Your task to perform on an android device: check android version Image 0: 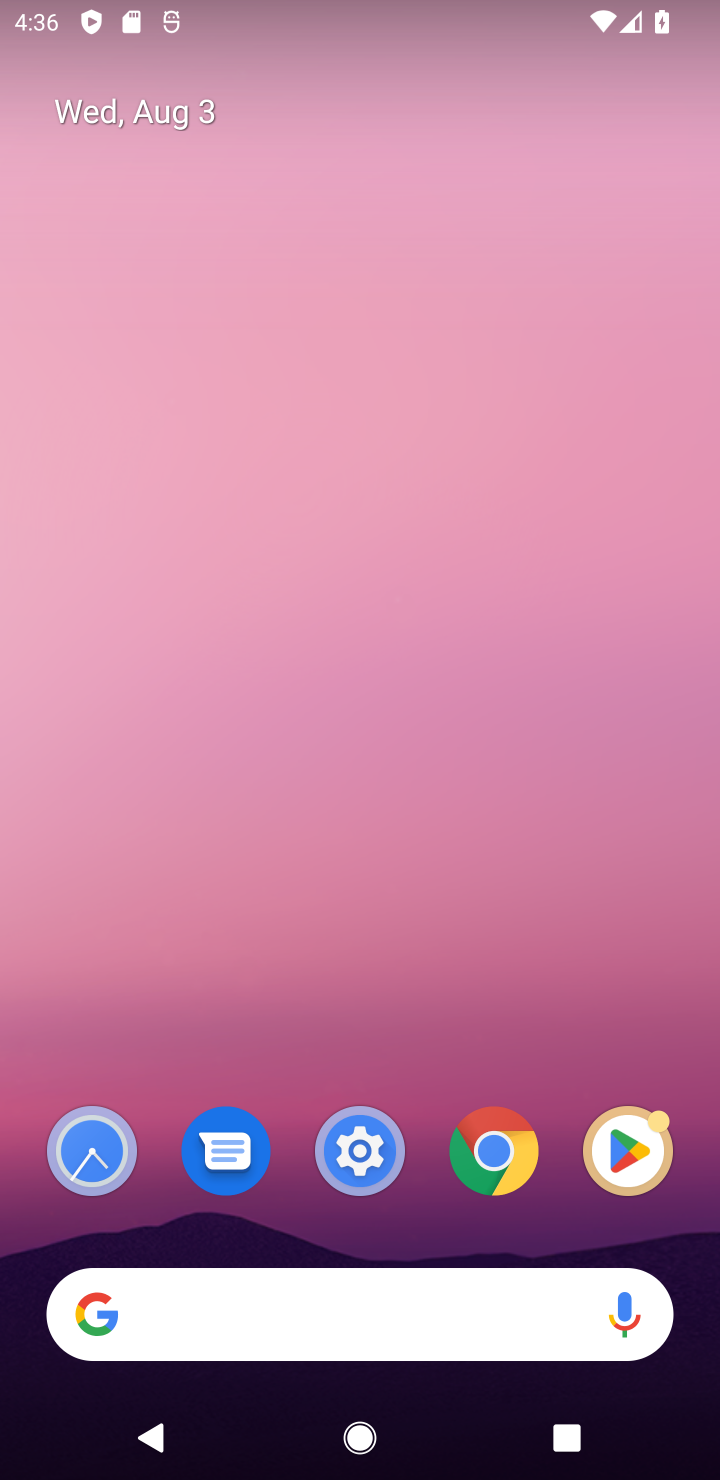
Step 0: drag from (704, 1062) to (314, 715)
Your task to perform on an android device: check android version Image 1: 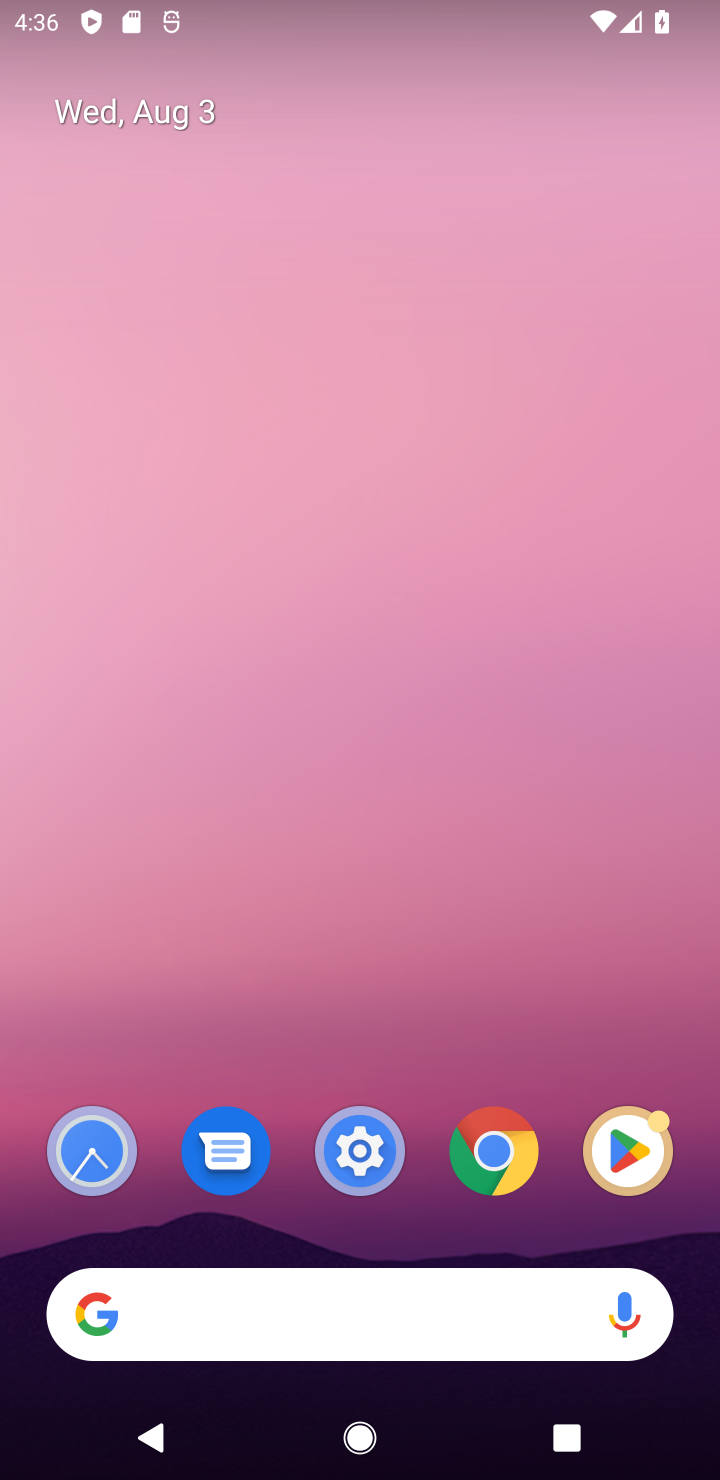
Step 1: click (292, 529)
Your task to perform on an android device: check android version Image 2: 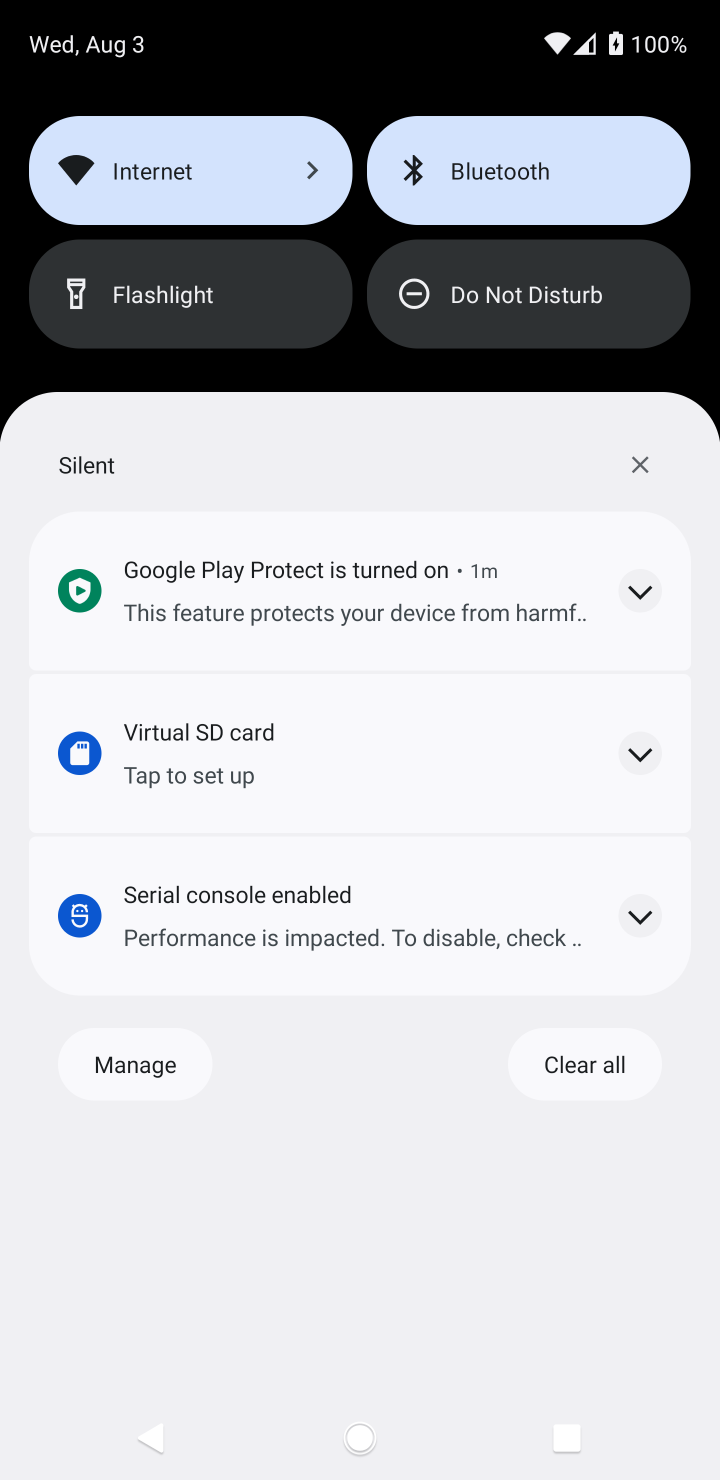
Step 2: press back button
Your task to perform on an android device: check android version Image 3: 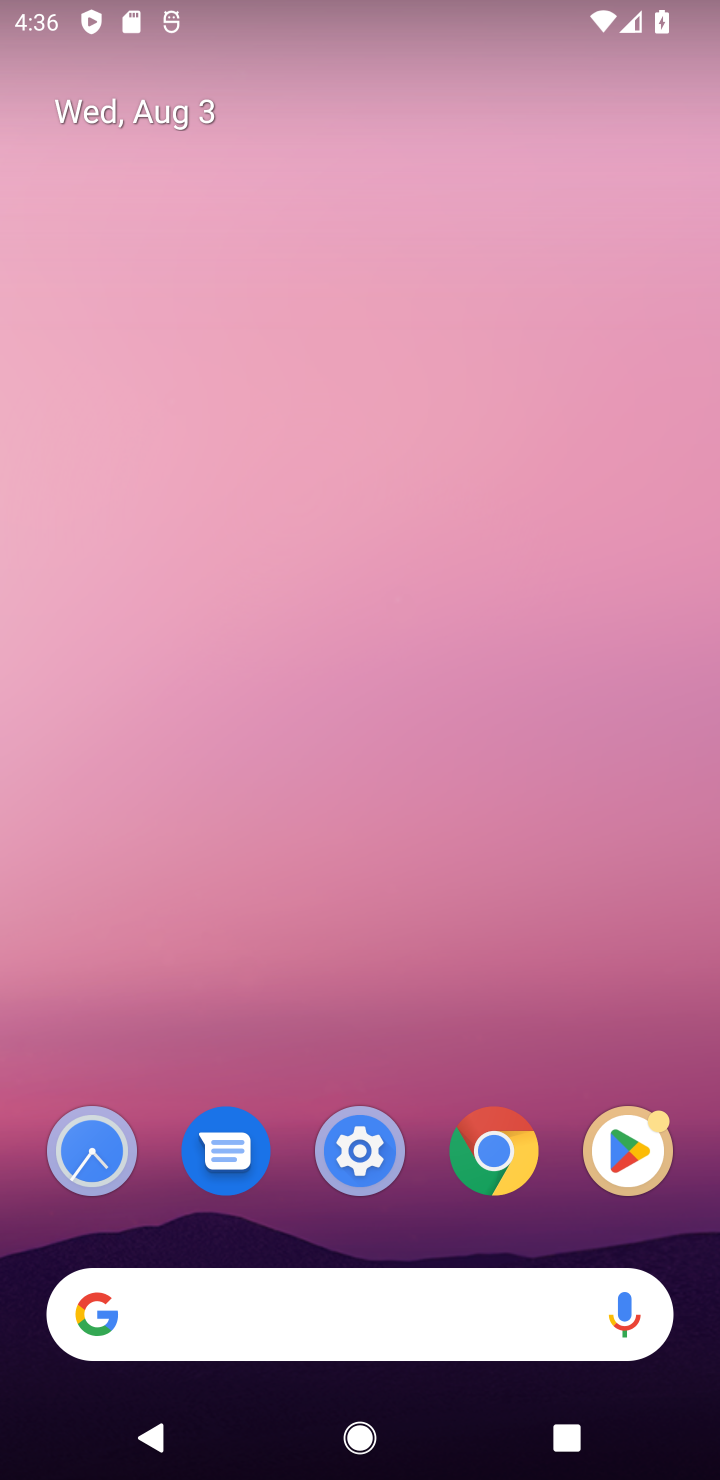
Step 3: press home button
Your task to perform on an android device: check android version Image 4: 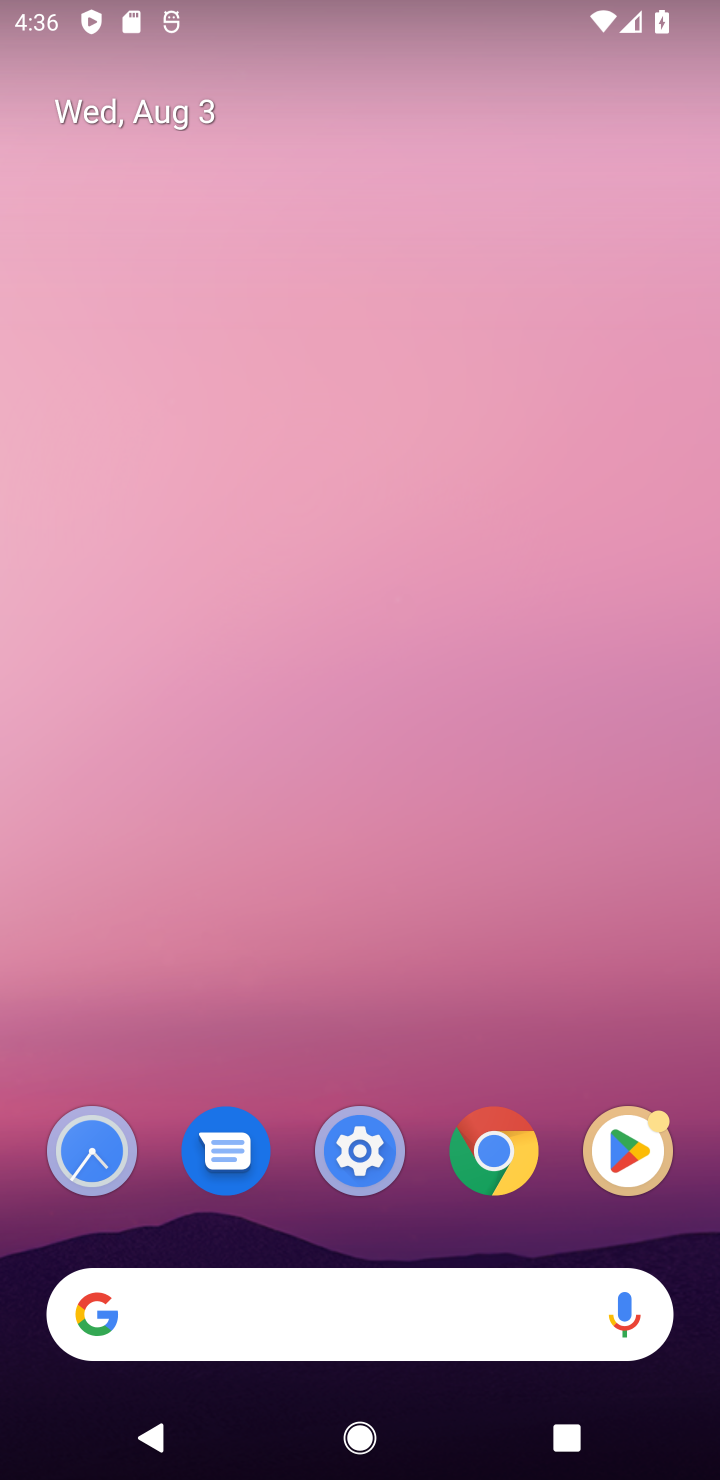
Step 4: press back button
Your task to perform on an android device: check android version Image 5: 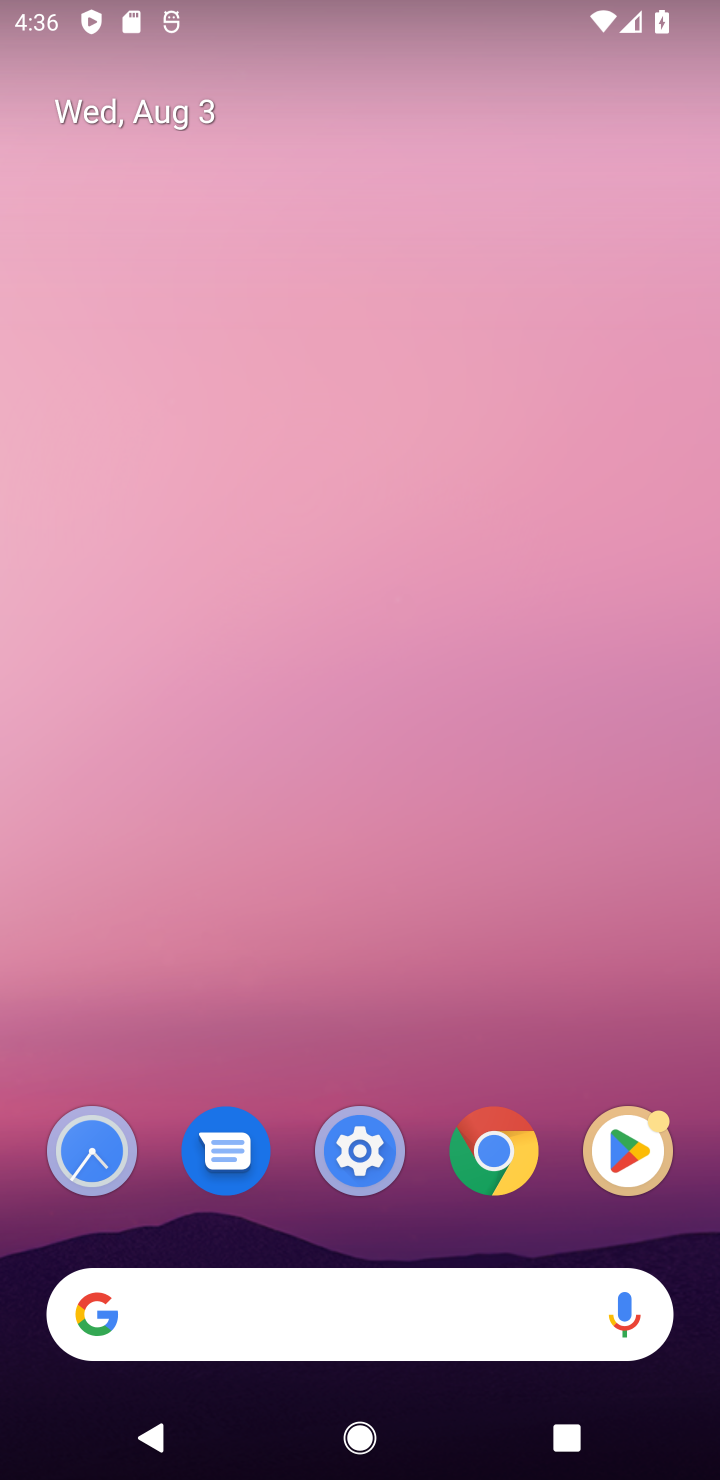
Step 5: drag from (330, 756) to (304, 457)
Your task to perform on an android device: check android version Image 6: 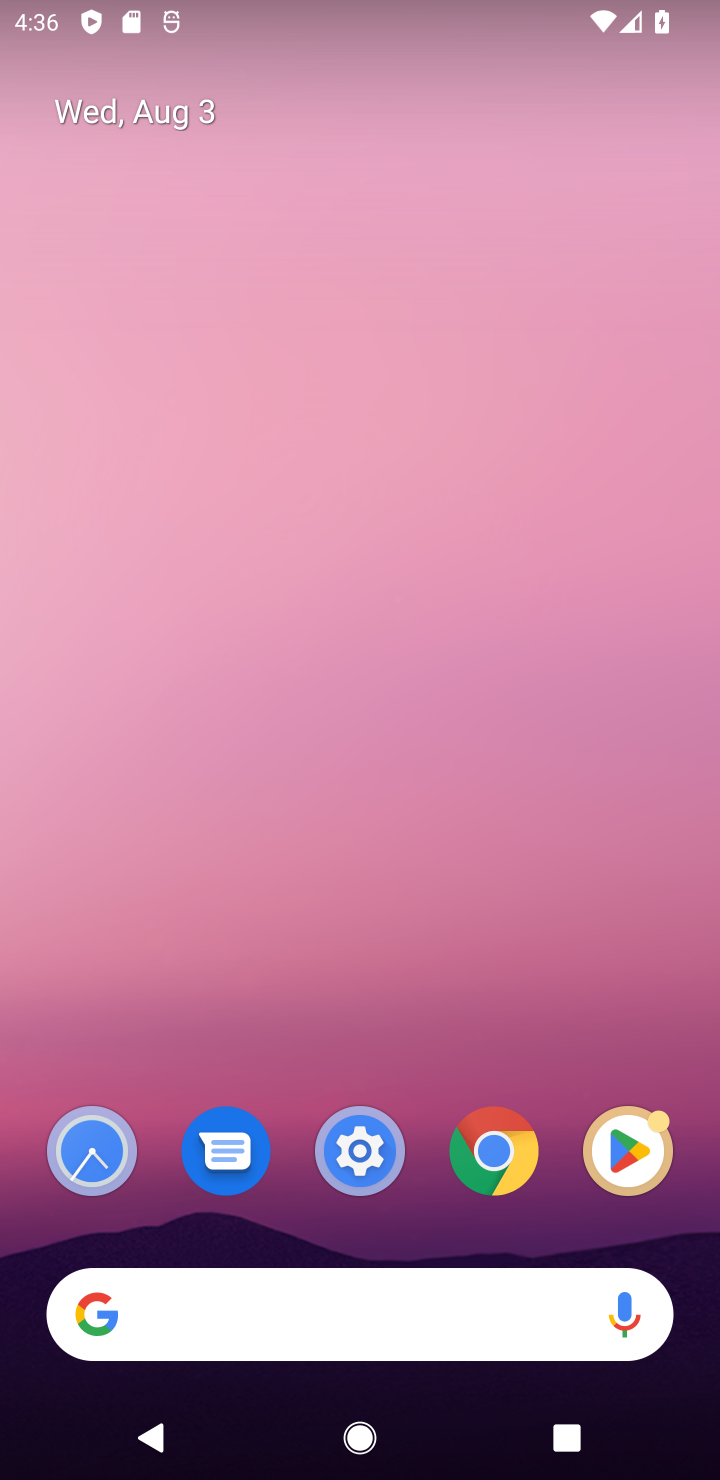
Step 6: drag from (353, 980) to (319, 571)
Your task to perform on an android device: check android version Image 7: 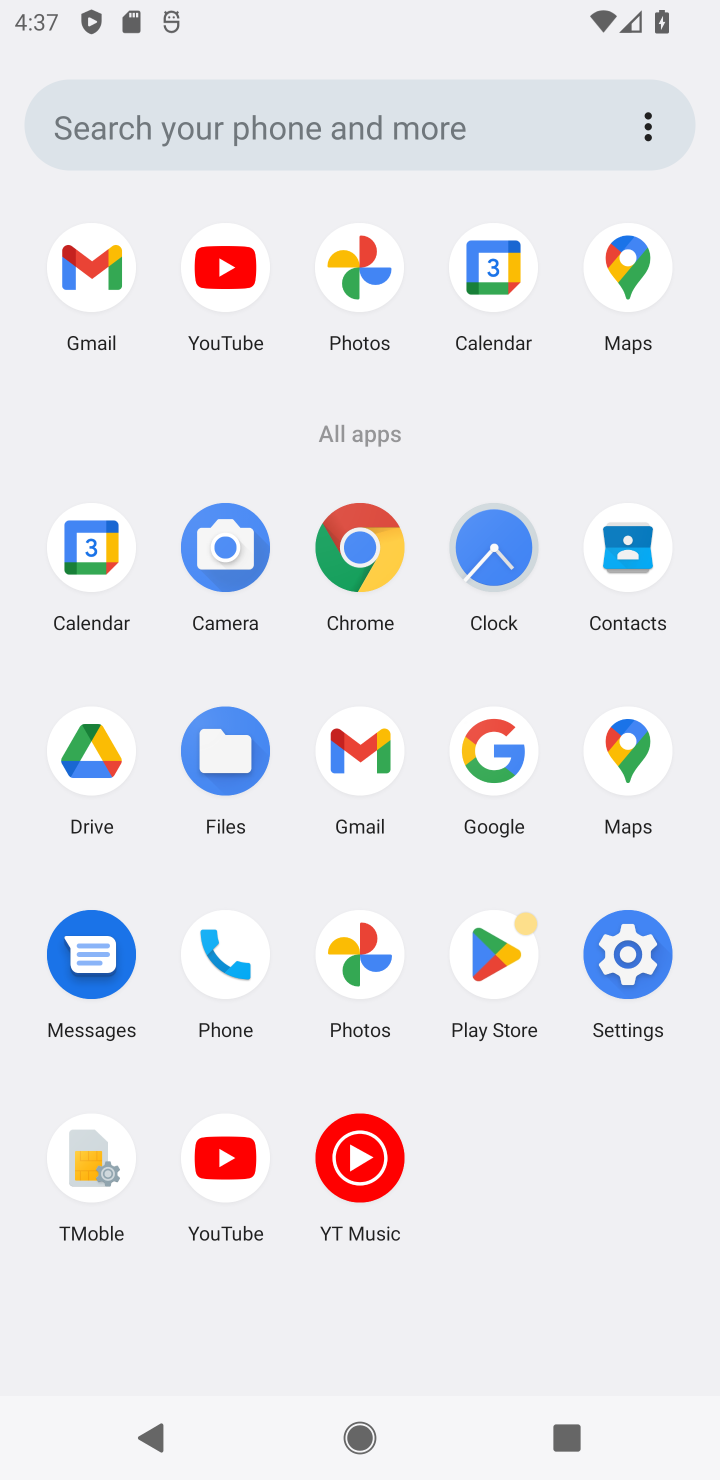
Step 7: click (642, 947)
Your task to perform on an android device: check android version Image 8: 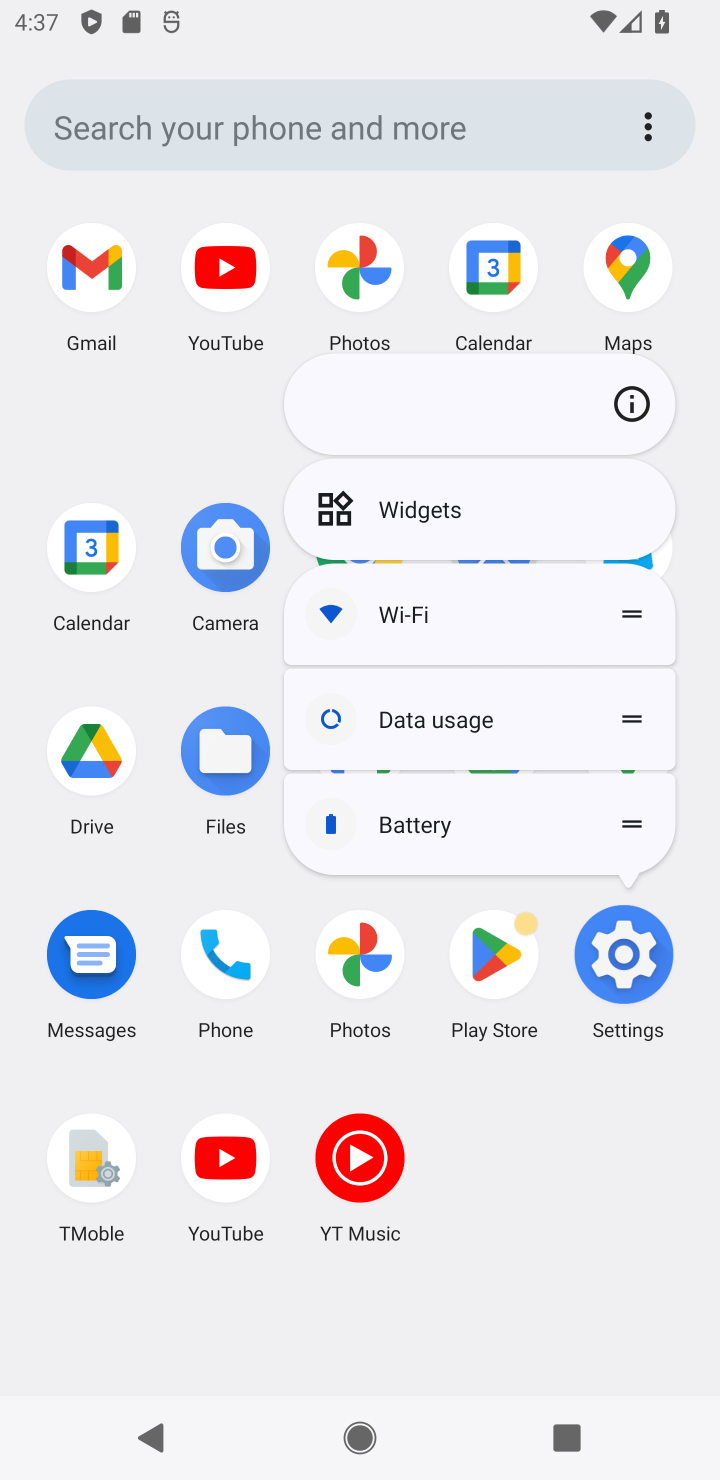
Step 8: click (620, 954)
Your task to perform on an android device: check android version Image 9: 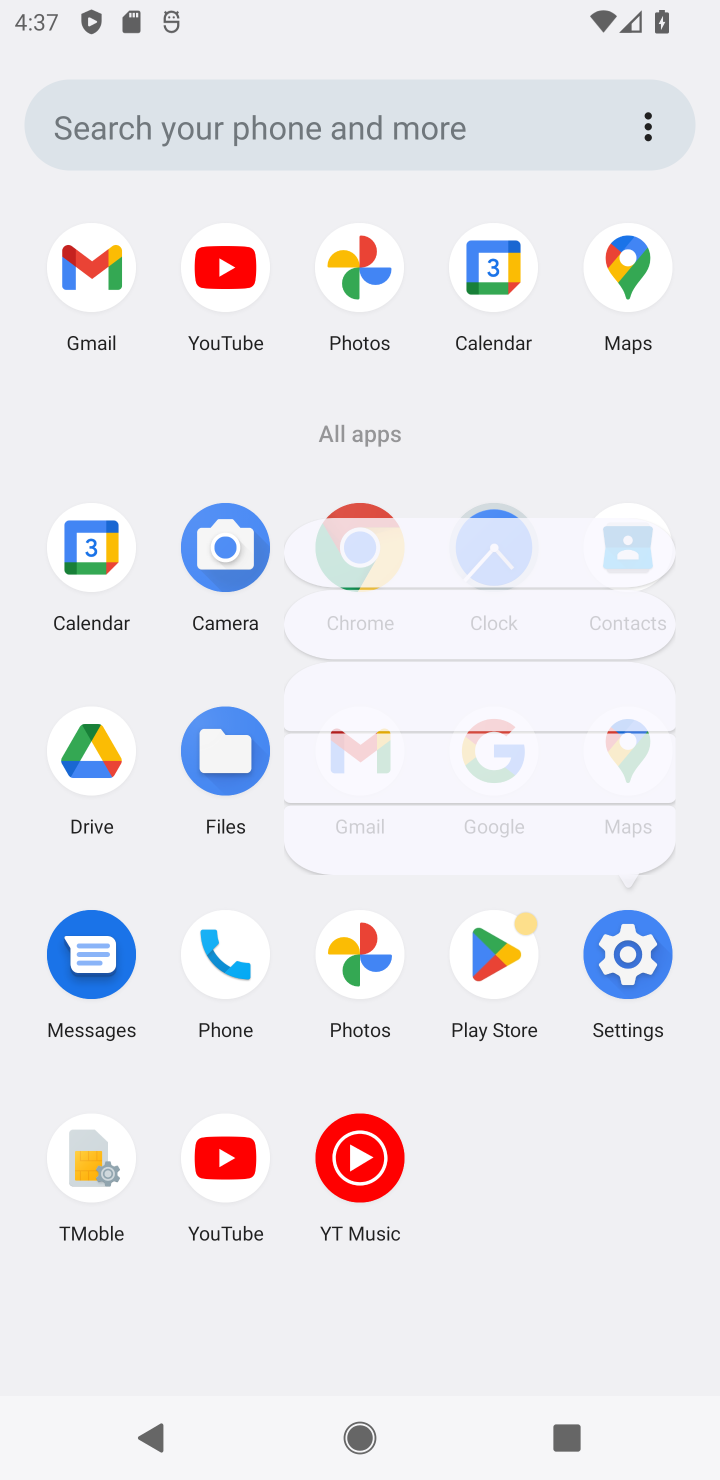
Step 9: click (614, 962)
Your task to perform on an android device: check android version Image 10: 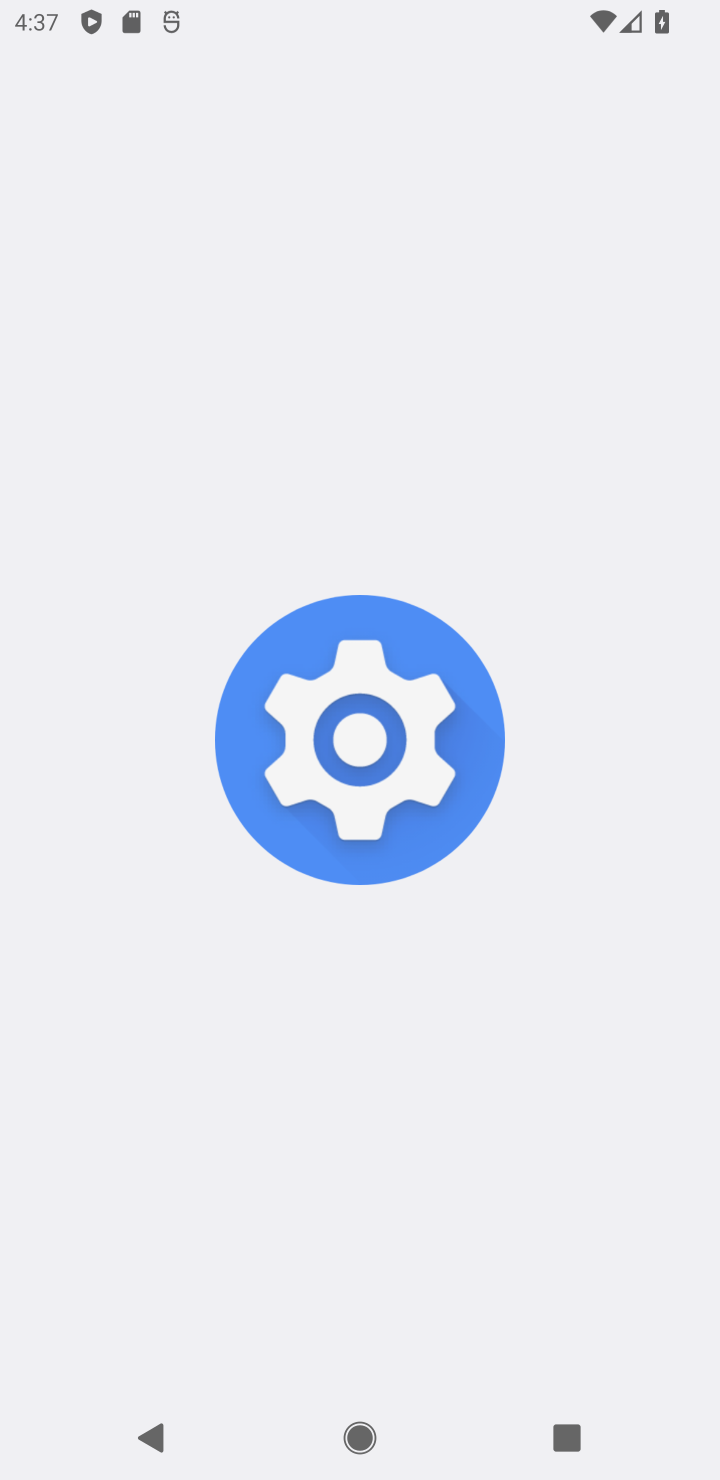
Step 10: click (601, 981)
Your task to perform on an android device: check android version Image 11: 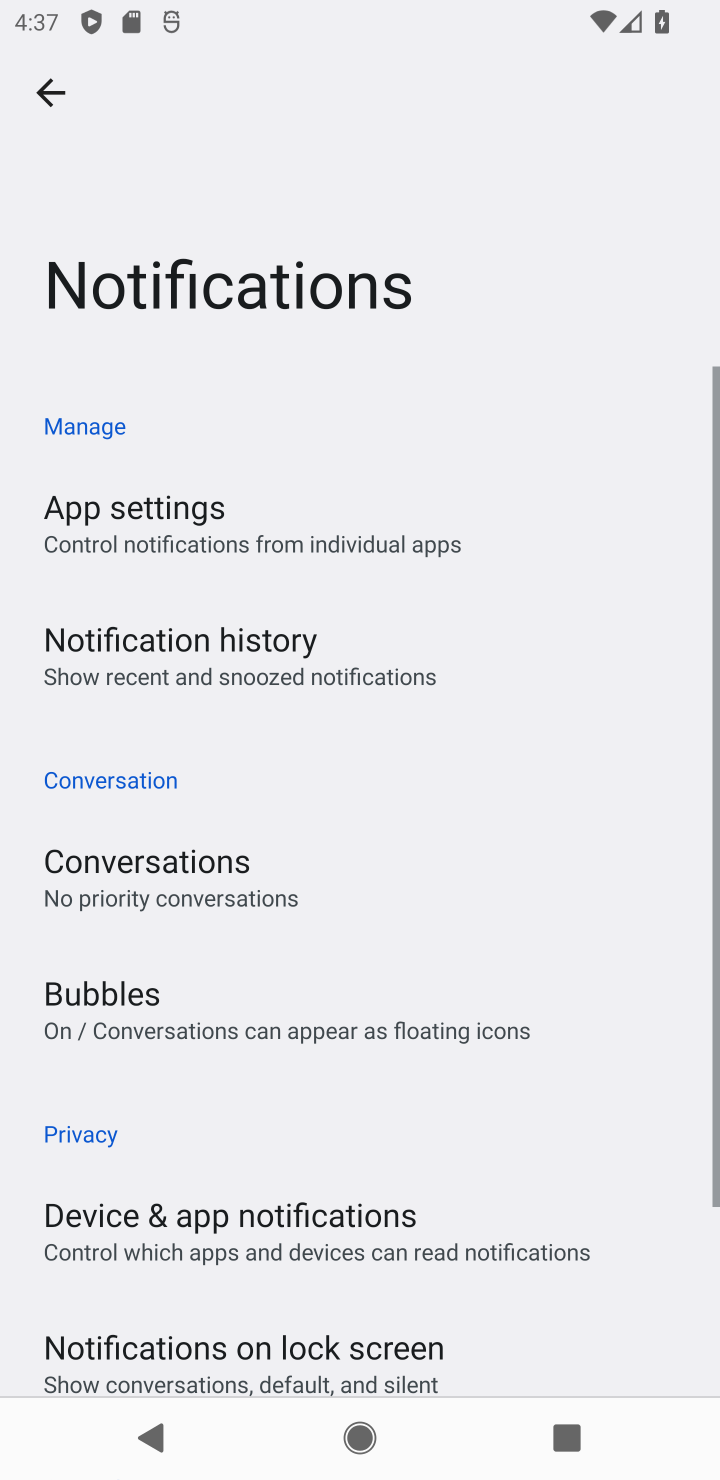
Step 11: drag from (230, 1088) to (217, 595)
Your task to perform on an android device: check android version Image 12: 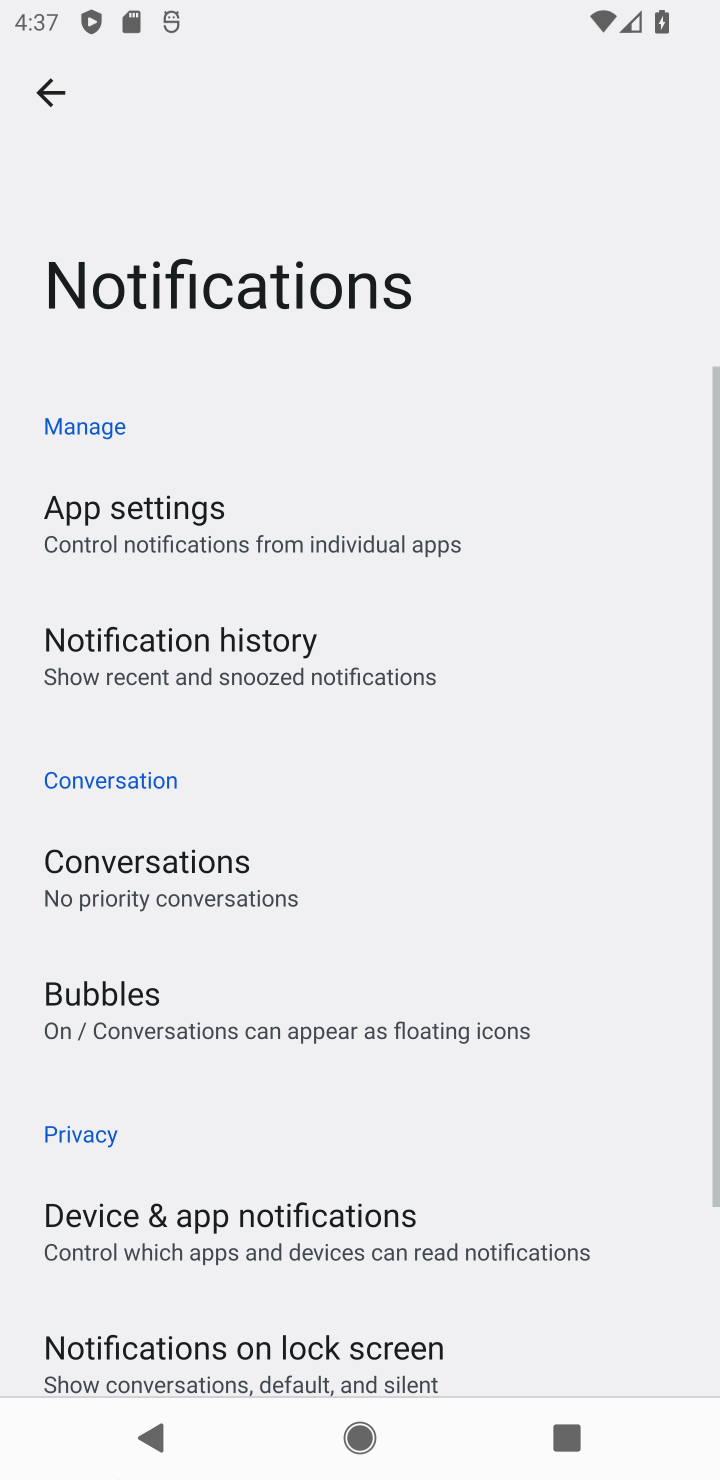
Step 12: drag from (358, 864) to (319, 594)
Your task to perform on an android device: check android version Image 13: 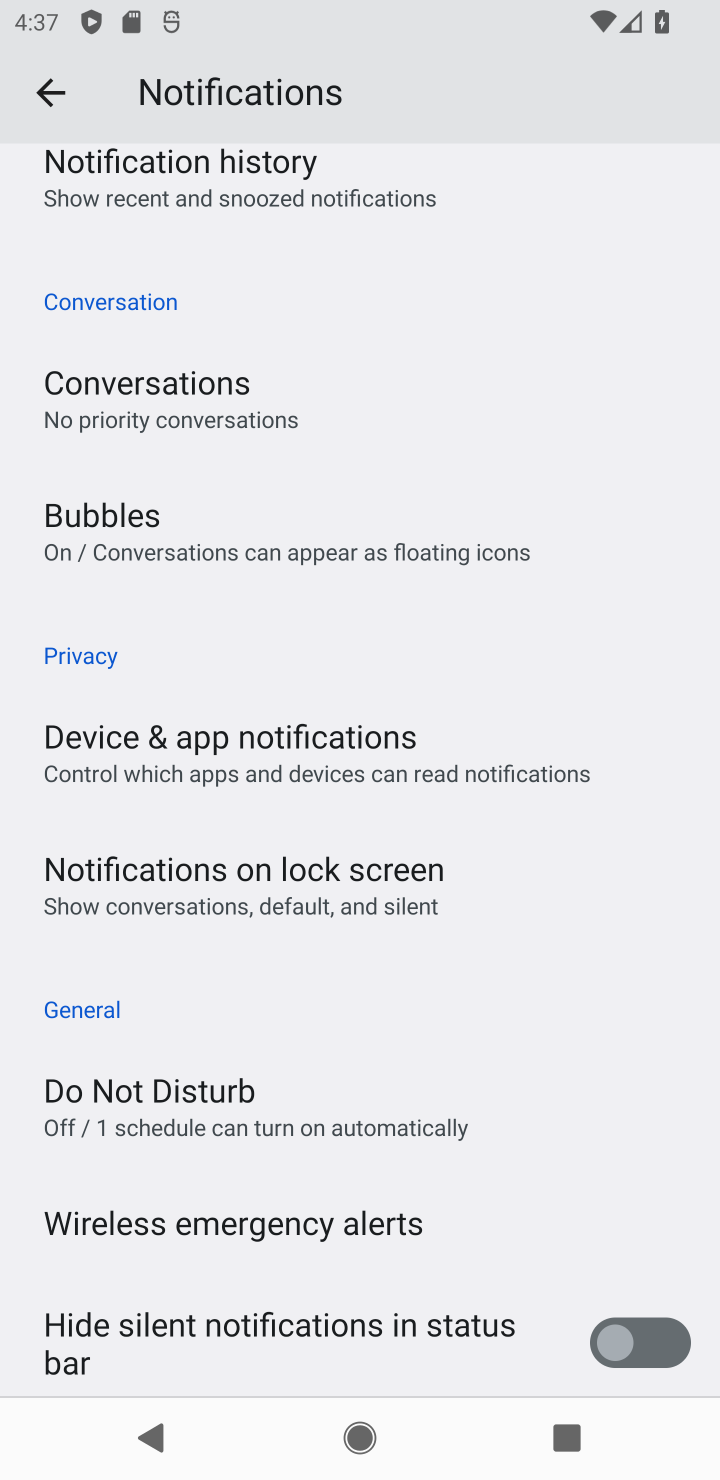
Step 13: drag from (182, 960) to (250, 227)
Your task to perform on an android device: check android version Image 14: 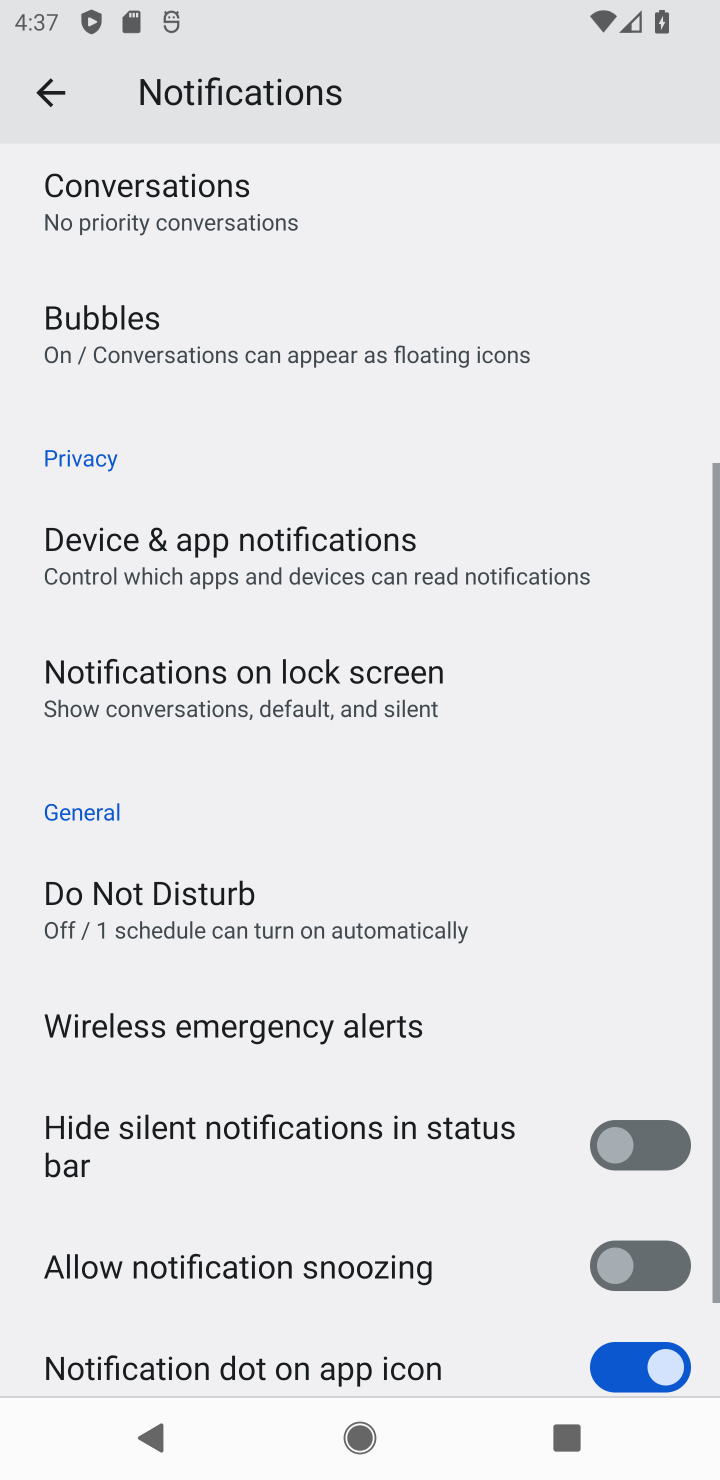
Step 14: drag from (299, 1050) to (362, 511)
Your task to perform on an android device: check android version Image 15: 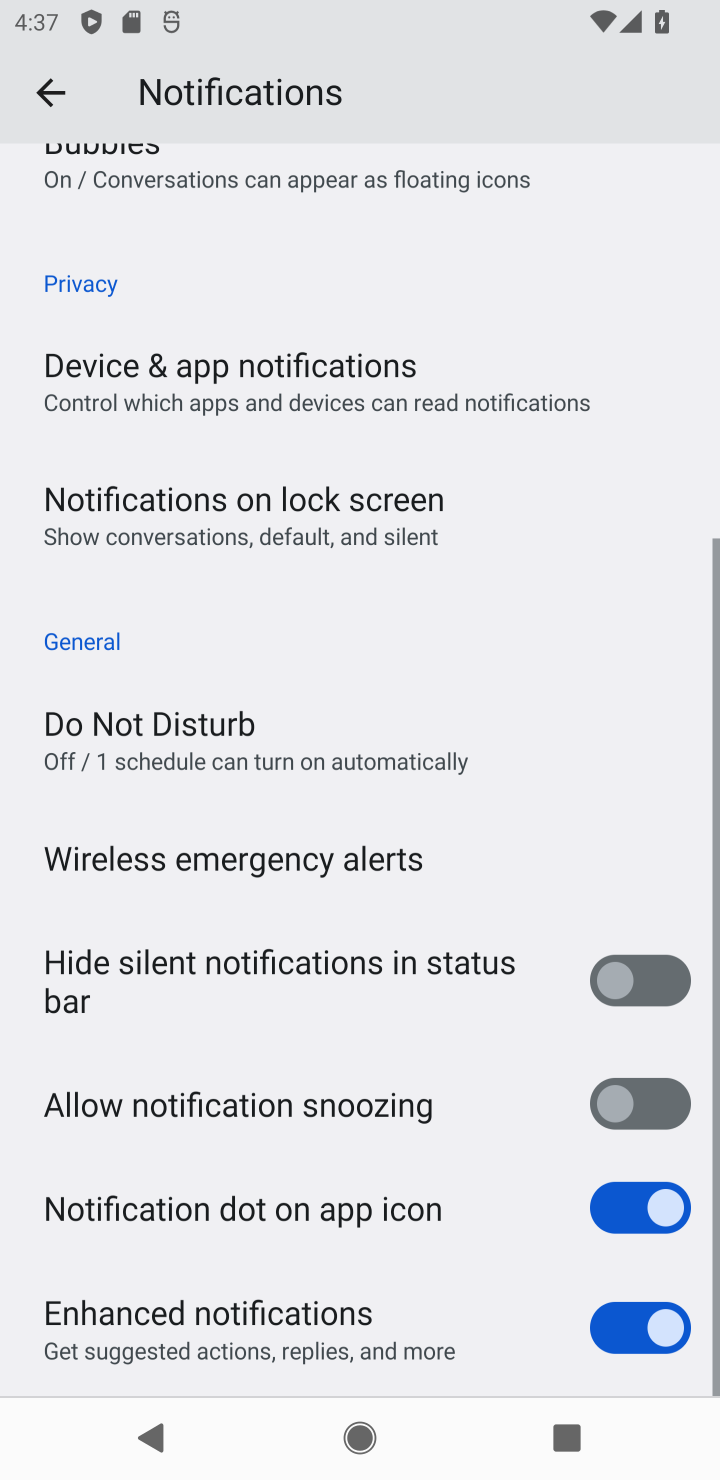
Step 15: drag from (264, 740) to (264, 495)
Your task to perform on an android device: check android version Image 16: 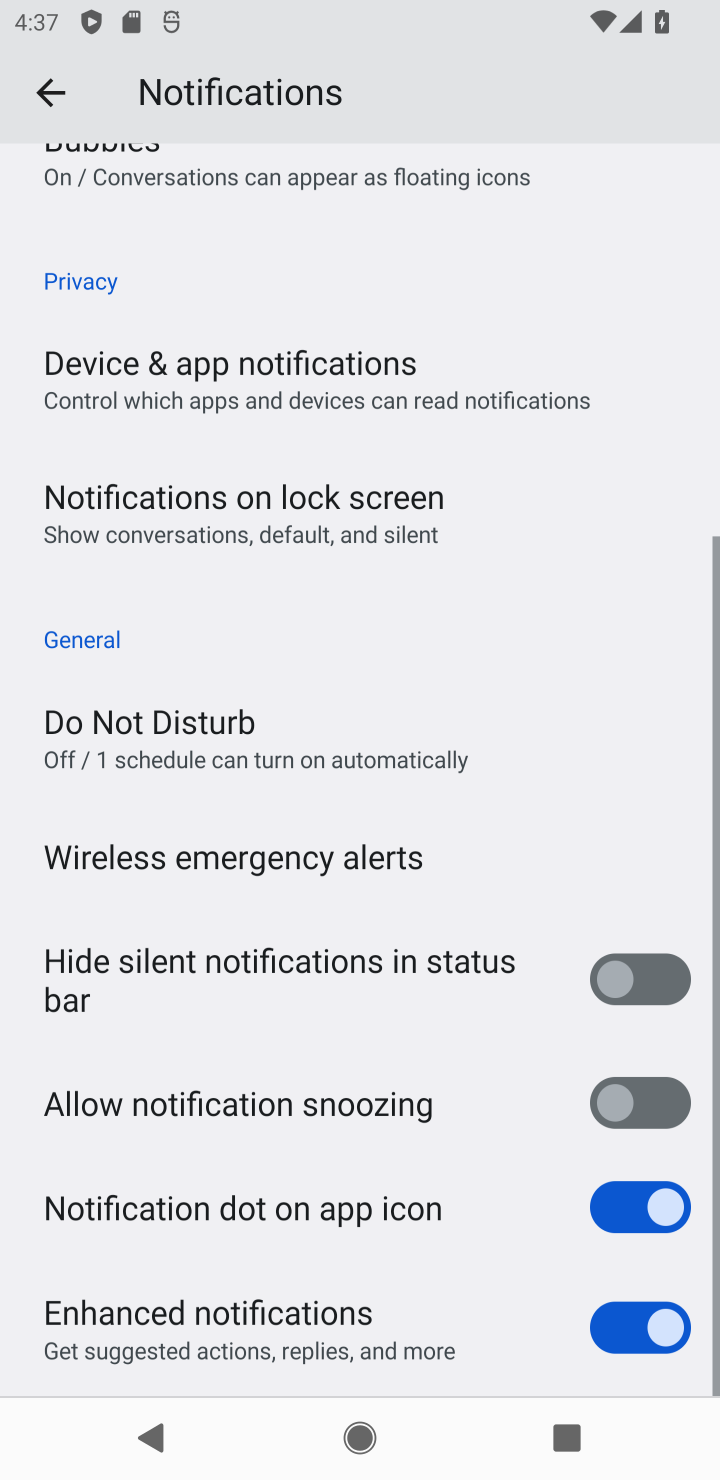
Step 16: drag from (341, 853) to (335, 585)
Your task to perform on an android device: check android version Image 17: 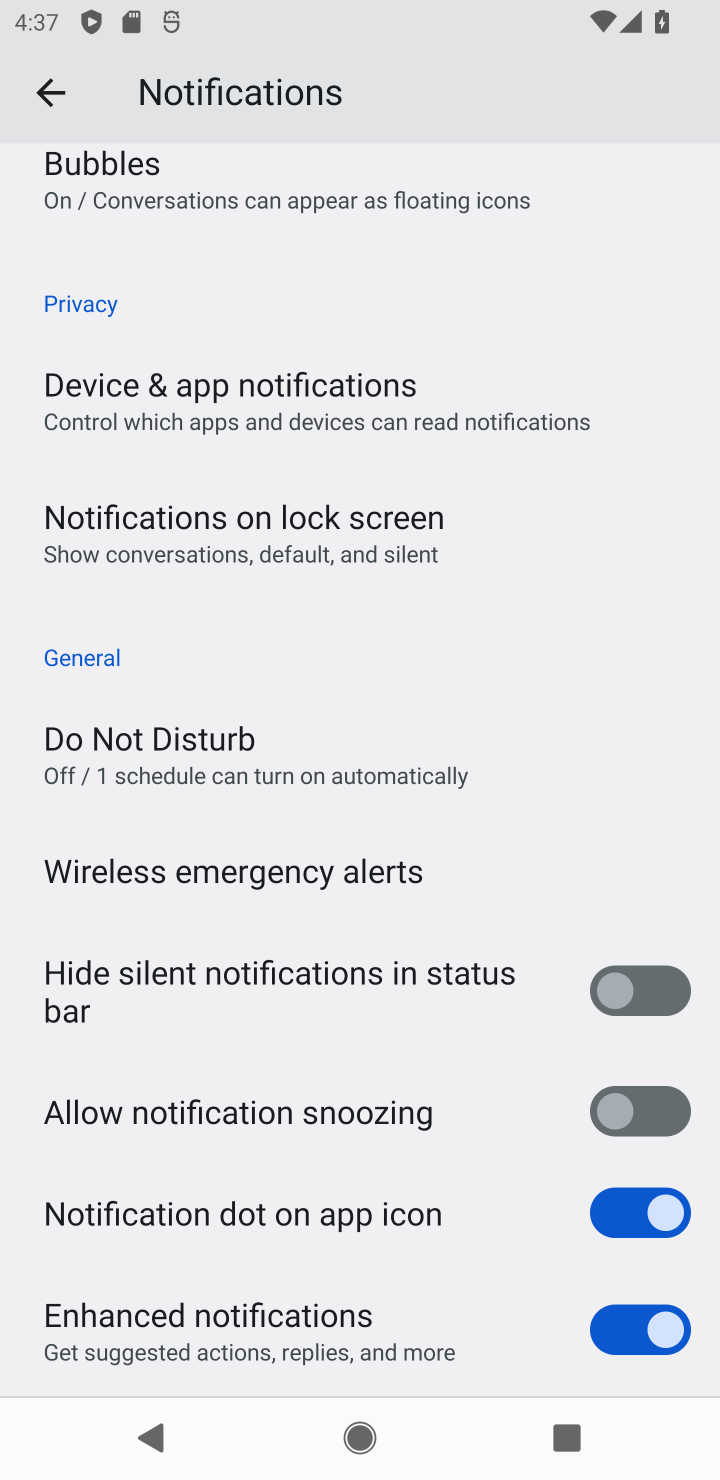
Step 17: drag from (363, 1094) to (340, 551)
Your task to perform on an android device: check android version Image 18: 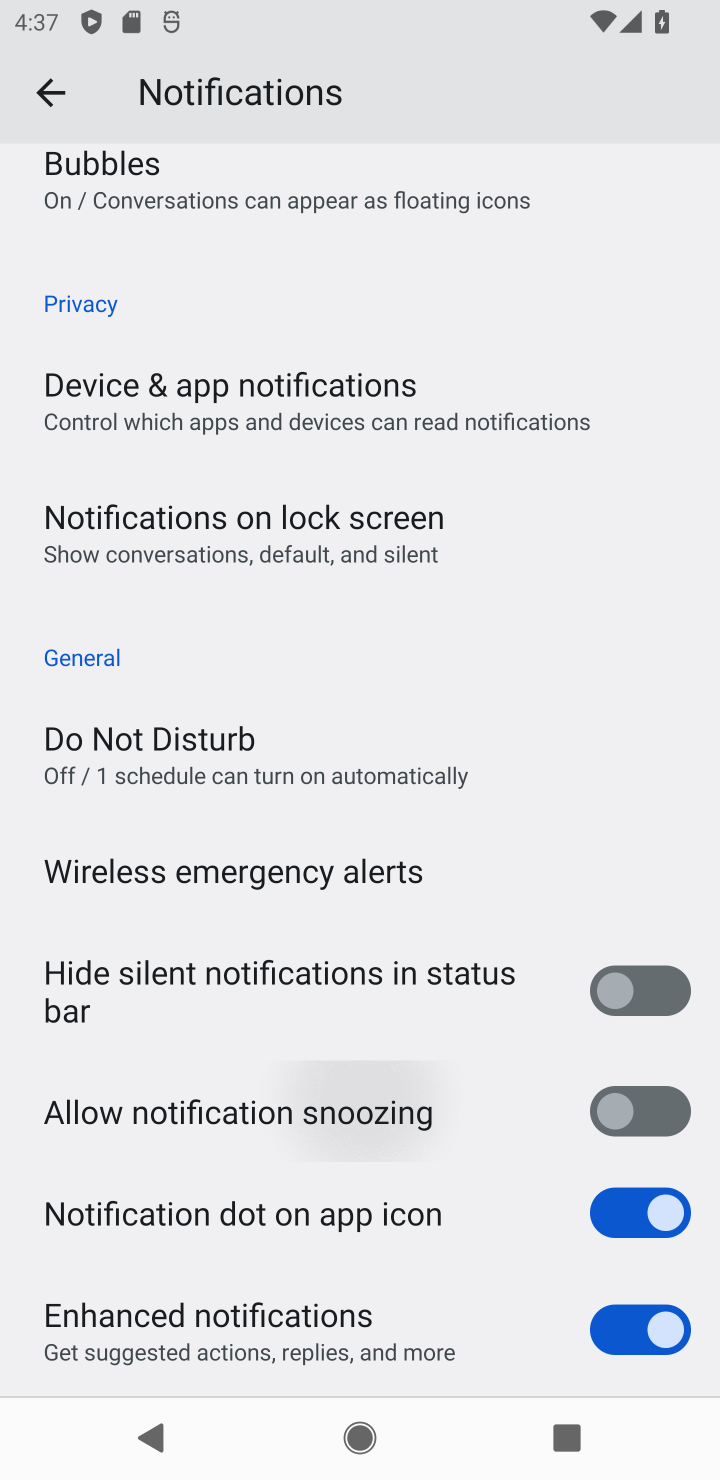
Step 18: click (156, 732)
Your task to perform on an android device: check android version Image 19: 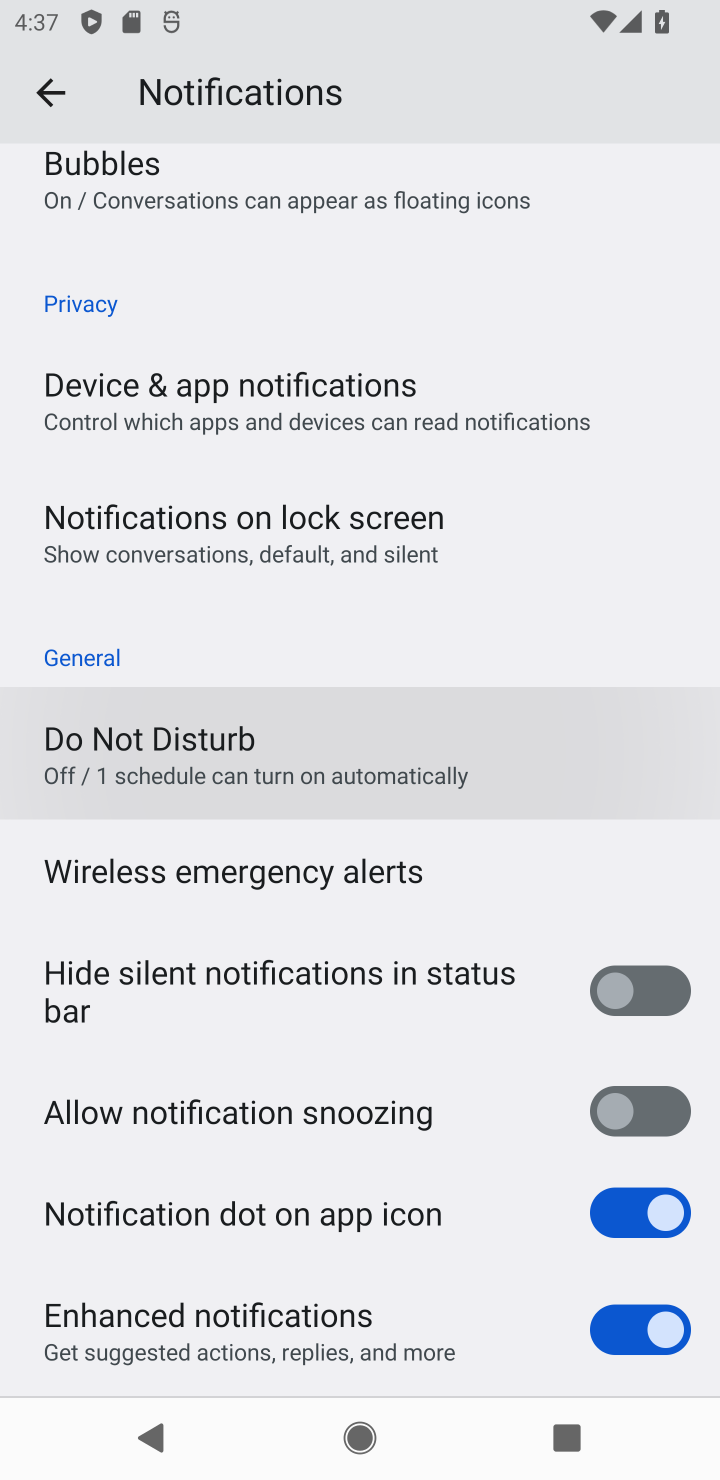
Step 19: click (46, 103)
Your task to perform on an android device: check android version Image 20: 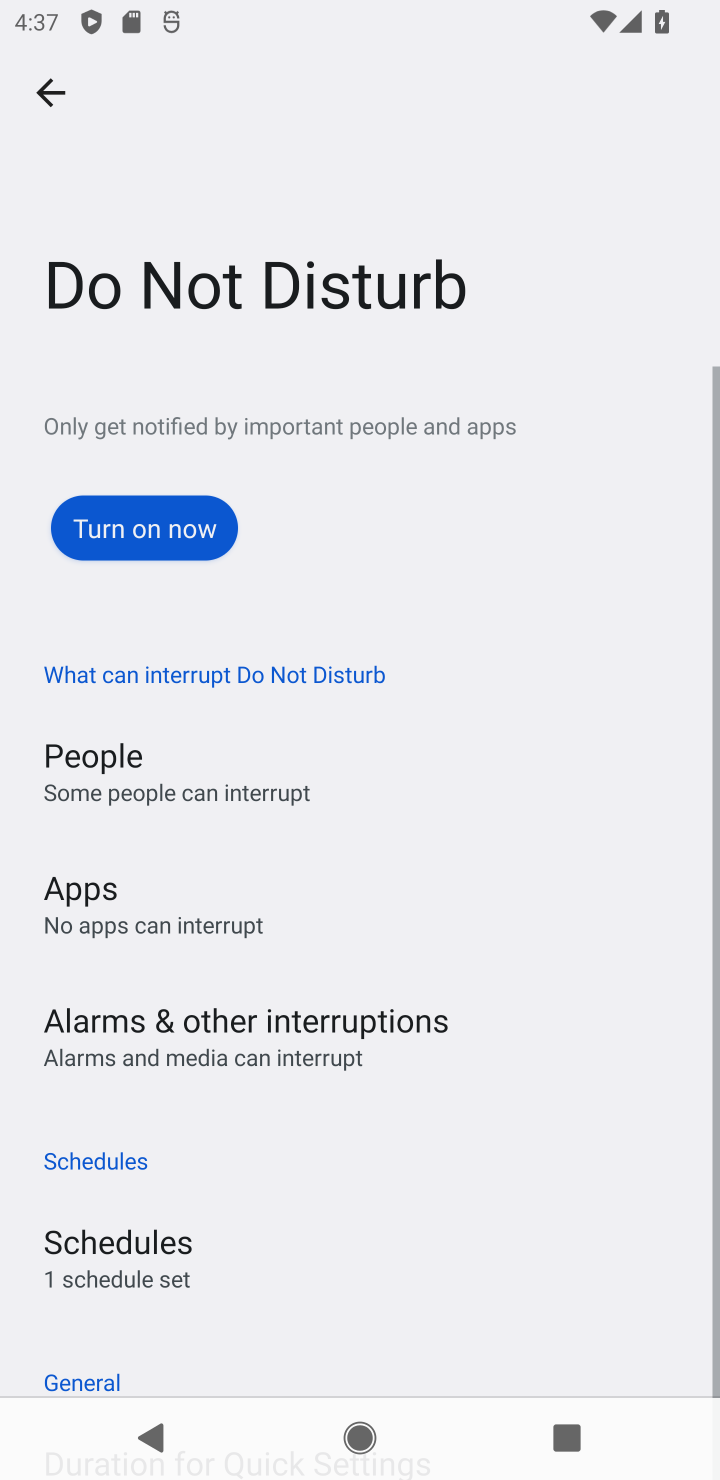
Step 20: click (45, 91)
Your task to perform on an android device: check android version Image 21: 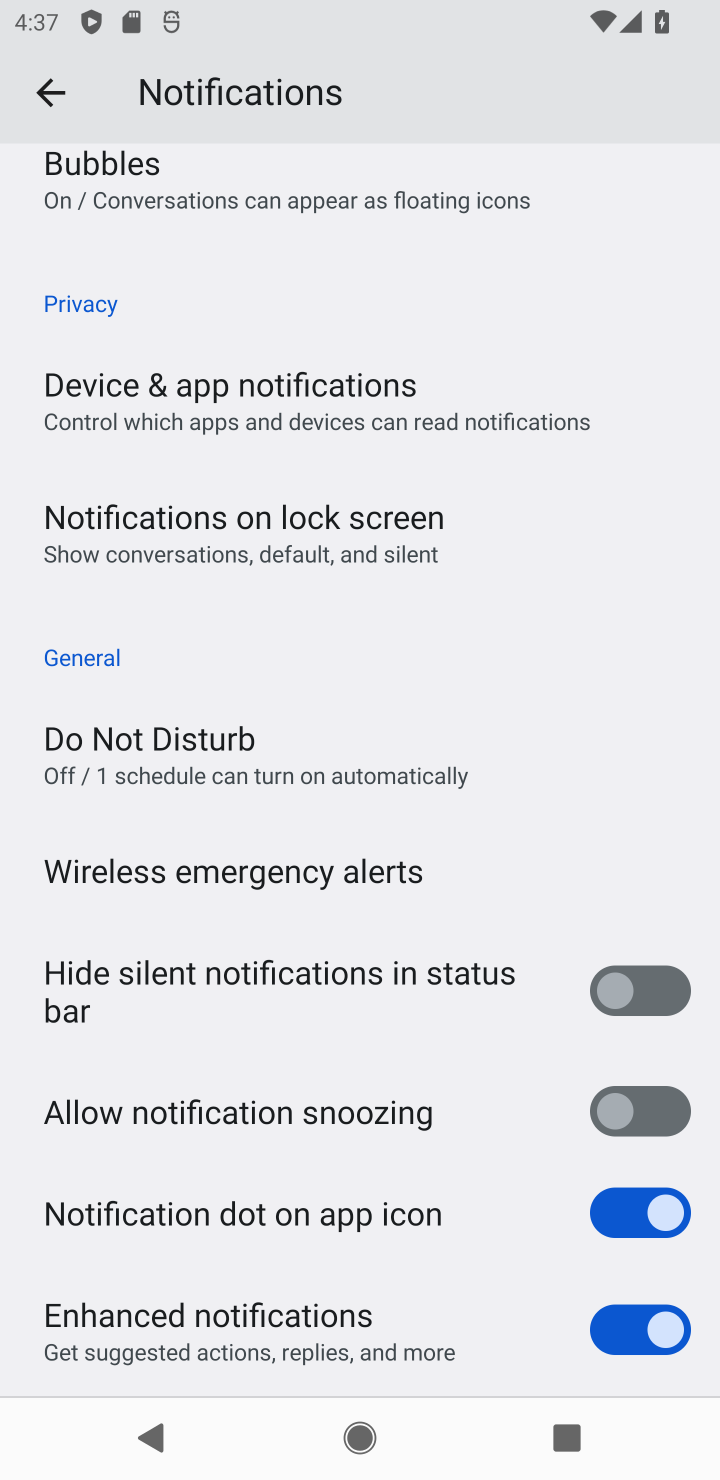
Step 21: click (52, 91)
Your task to perform on an android device: check android version Image 22: 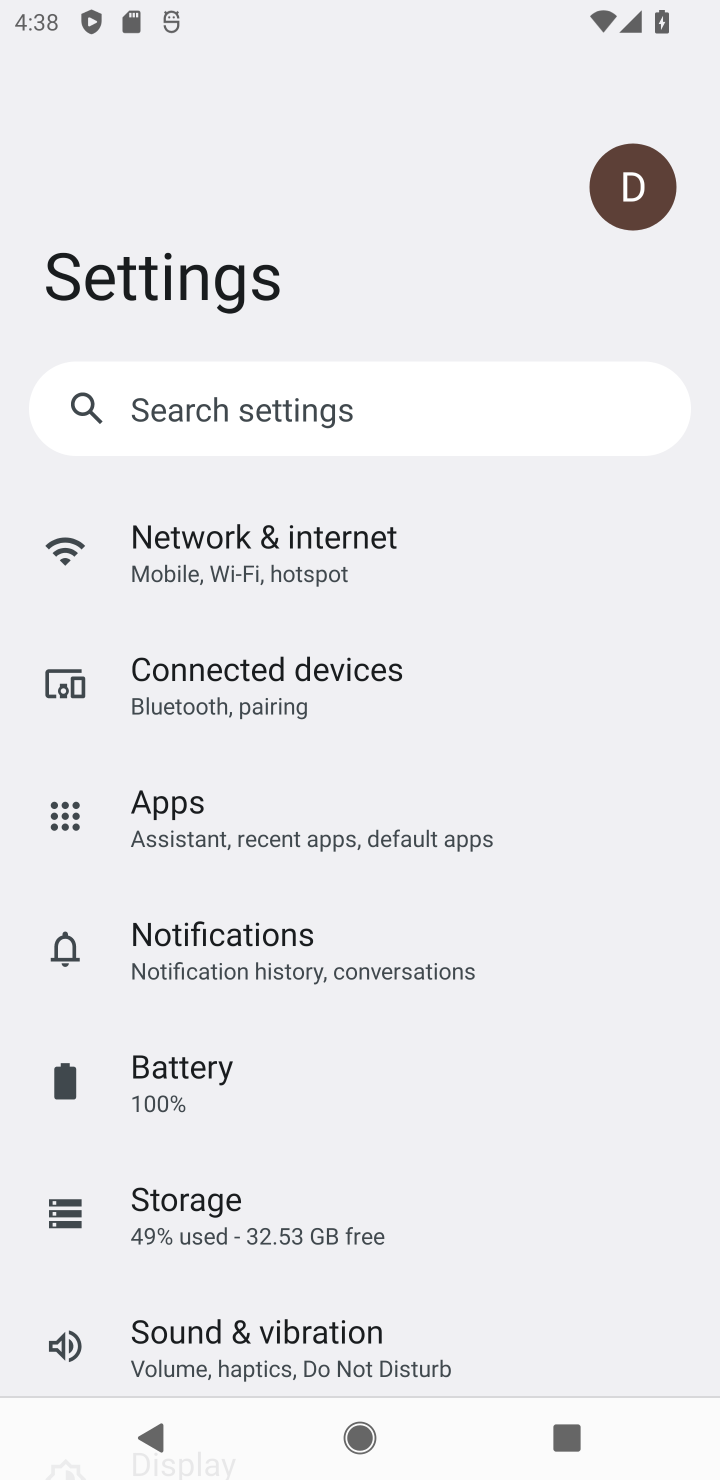
Step 22: drag from (301, 730) to (293, 321)
Your task to perform on an android device: check android version Image 23: 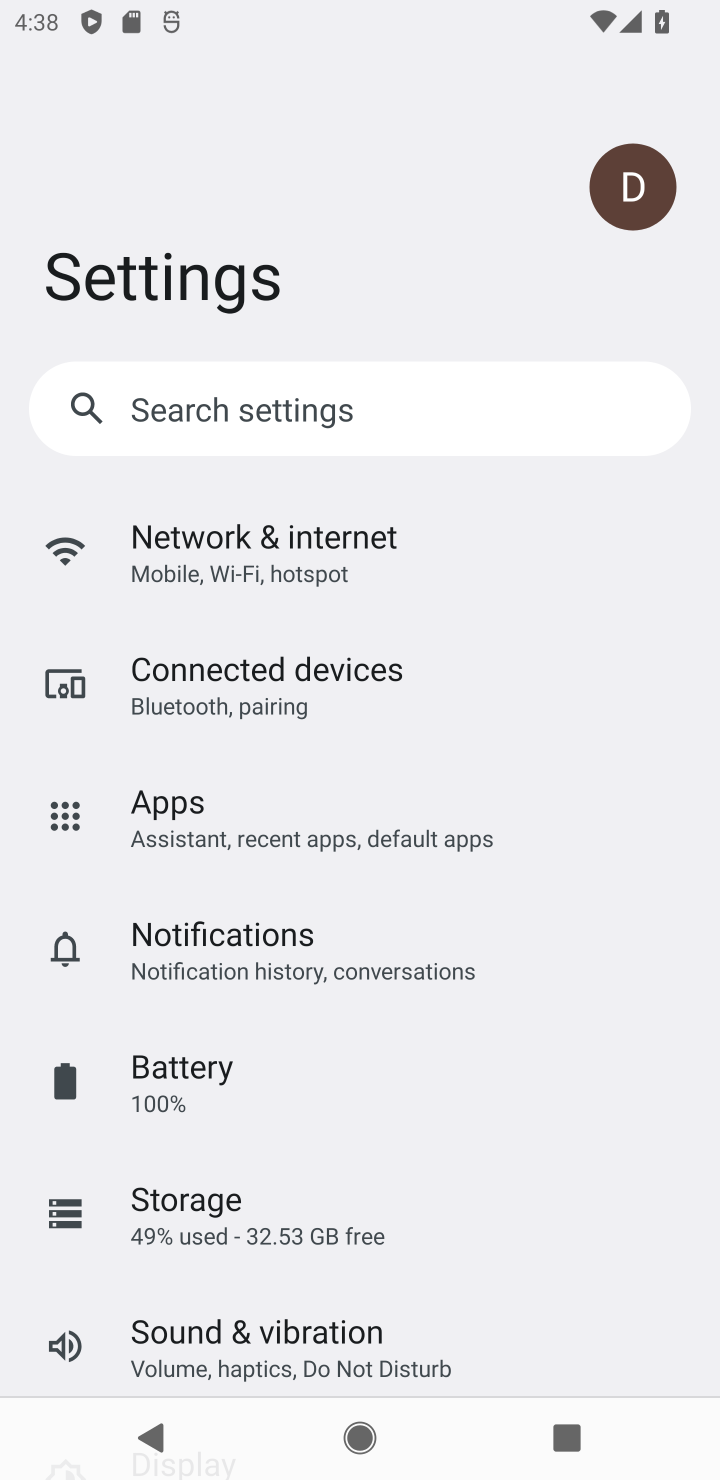
Step 23: click (184, 536)
Your task to perform on an android device: check android version Image 24: 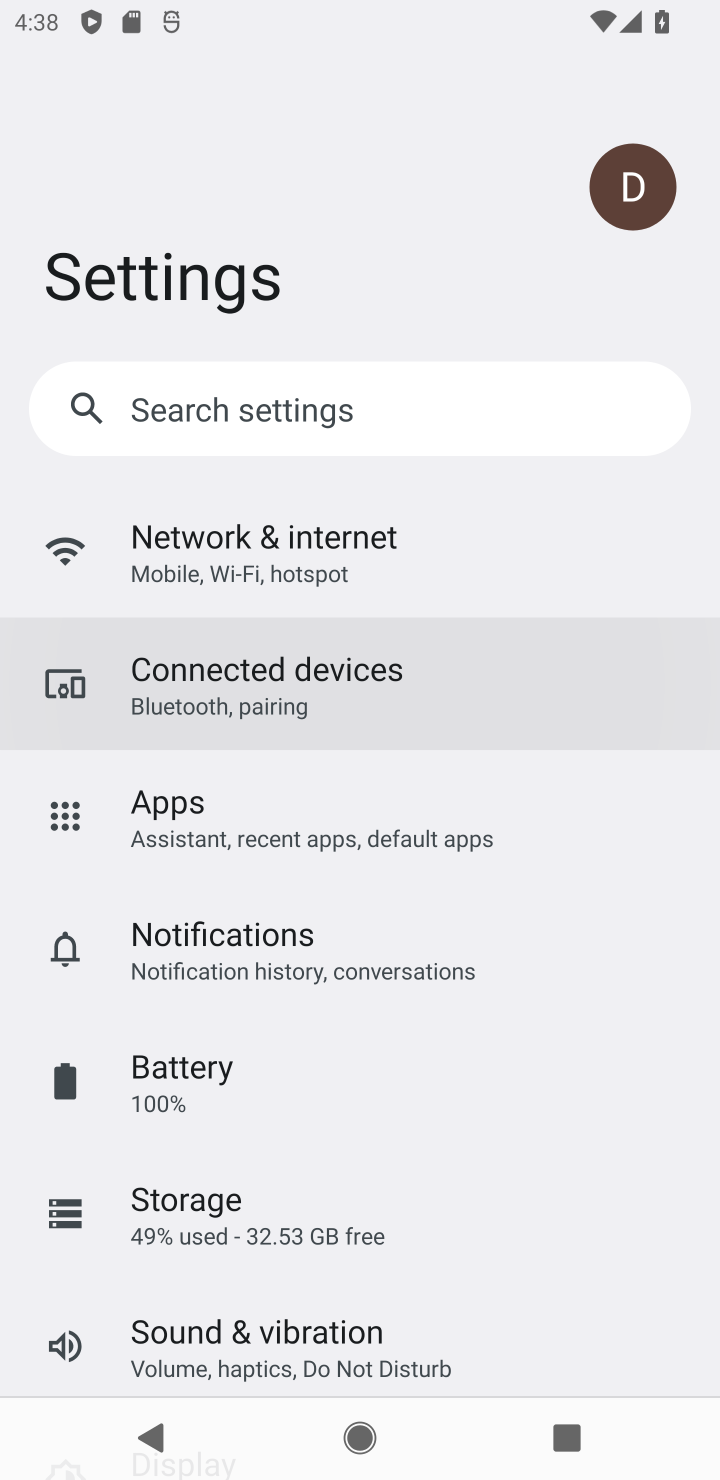
Step 24: drag from (249, 809) to (248, 472)
Your task to perform on an android device: check android version Image 25: 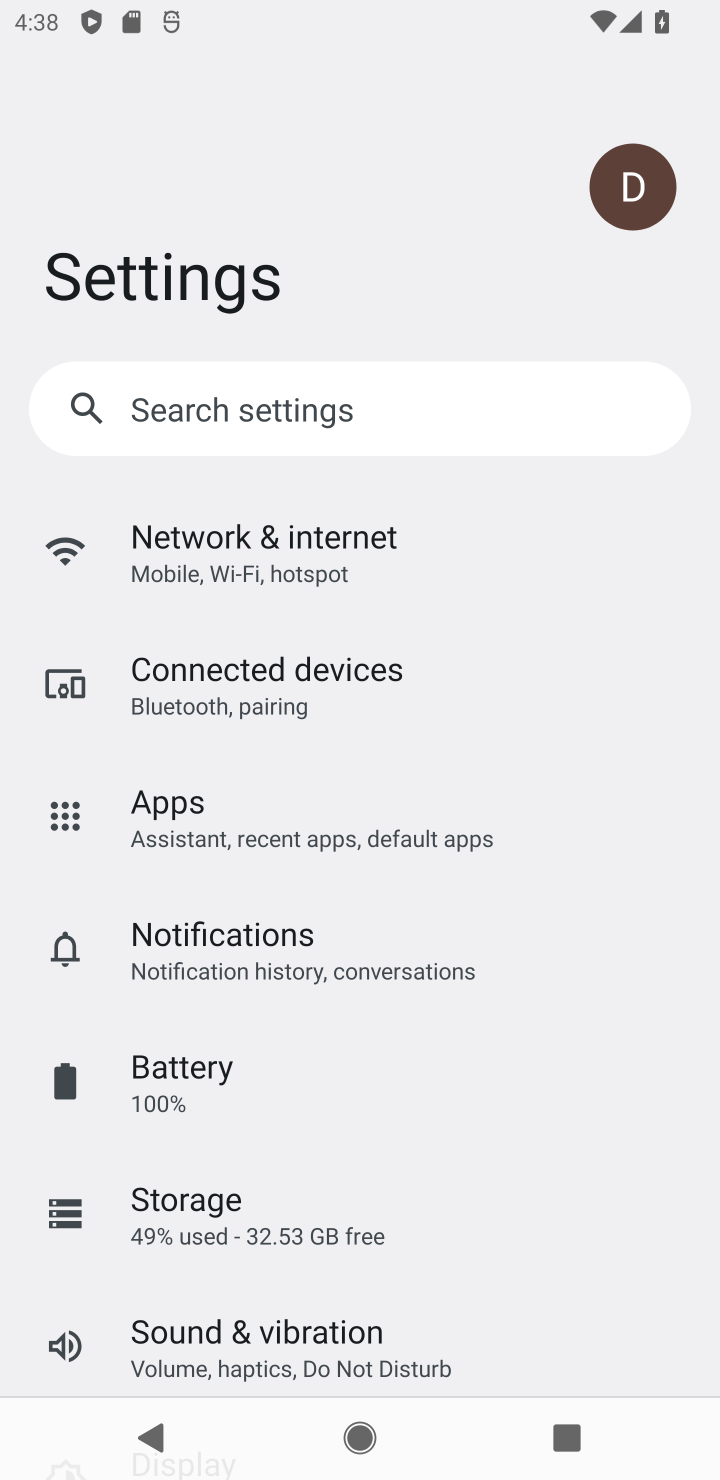
Step 25: drag from (289, 785) to (285, 866)
Your task to perform on an android device: check android version Image 26: 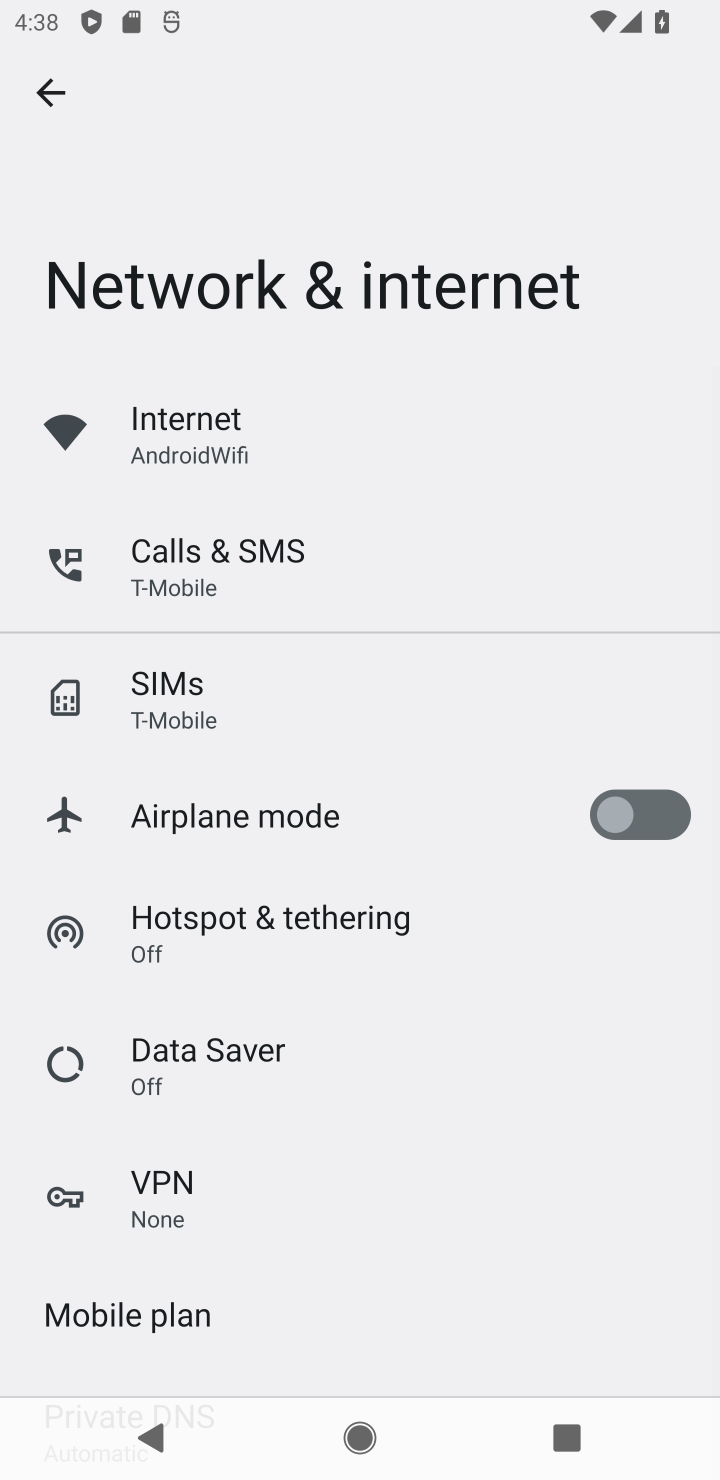
Step 26: click (48, 100)
Your task to perform on an android device: check android version Image 27: 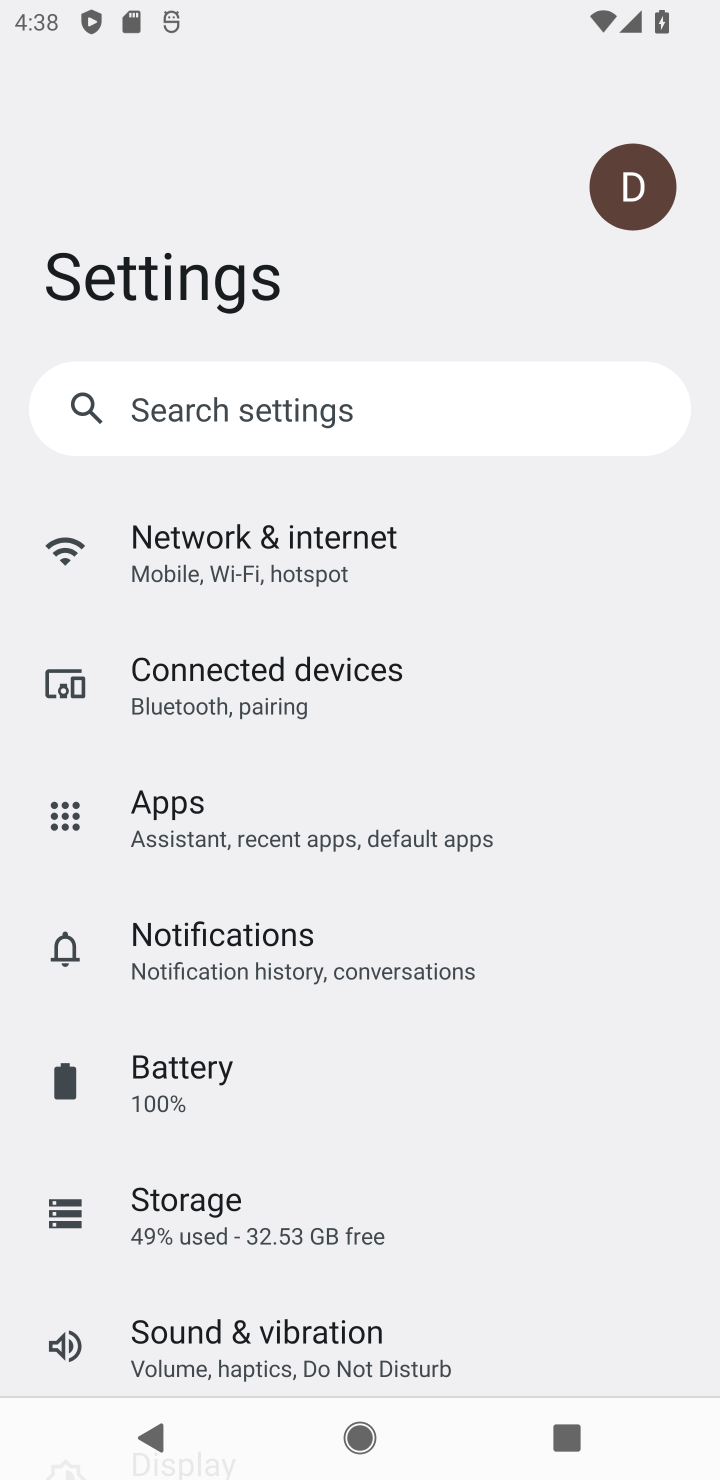
Step 27: drag from (242, 1069) to (181, 427)
Your task to perform on an android device: check android version Image 28: 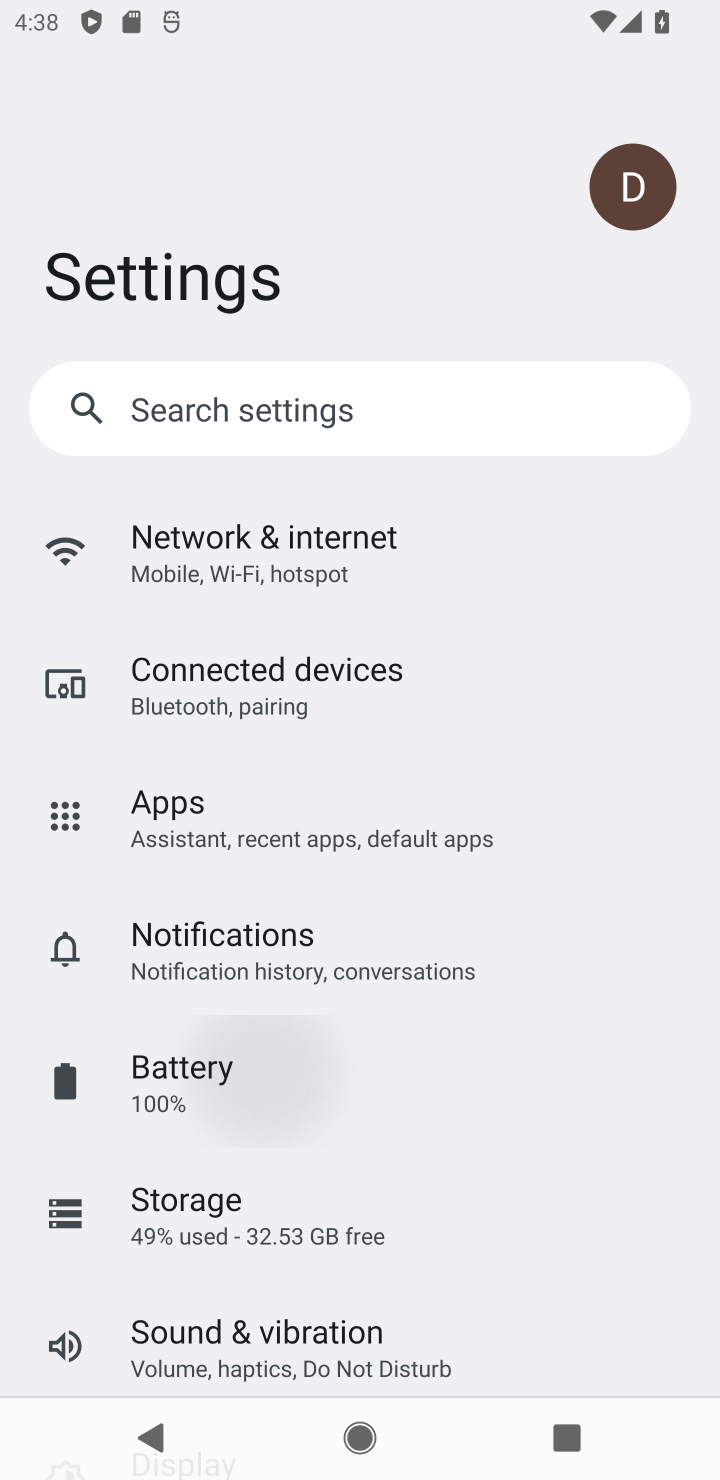
Step 28: drag from (347, 1144) to (364, 448)
Your task to perform on an android device: check android version Image 29: 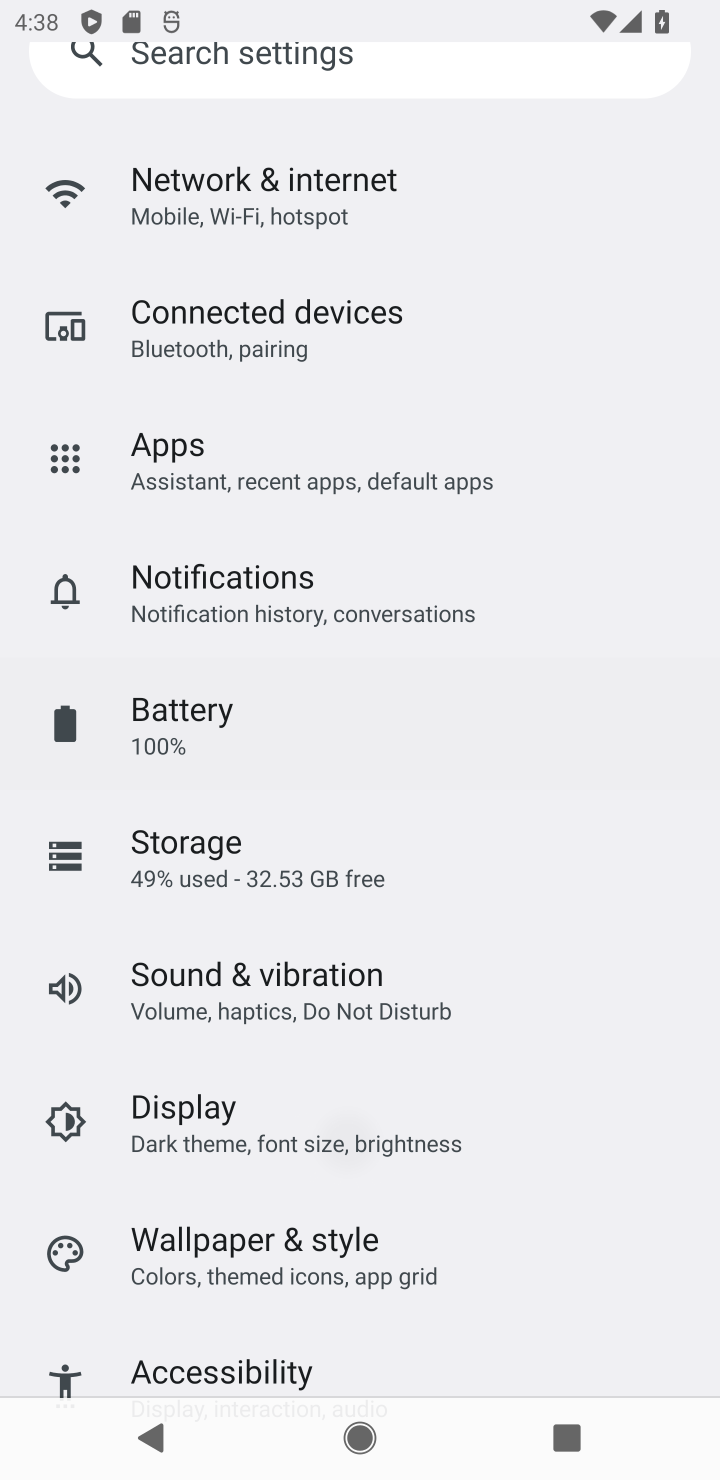
Step 29: drag from (319, 1031) to (270, 497)
Your task to perform on an android device: check android version Image 30: 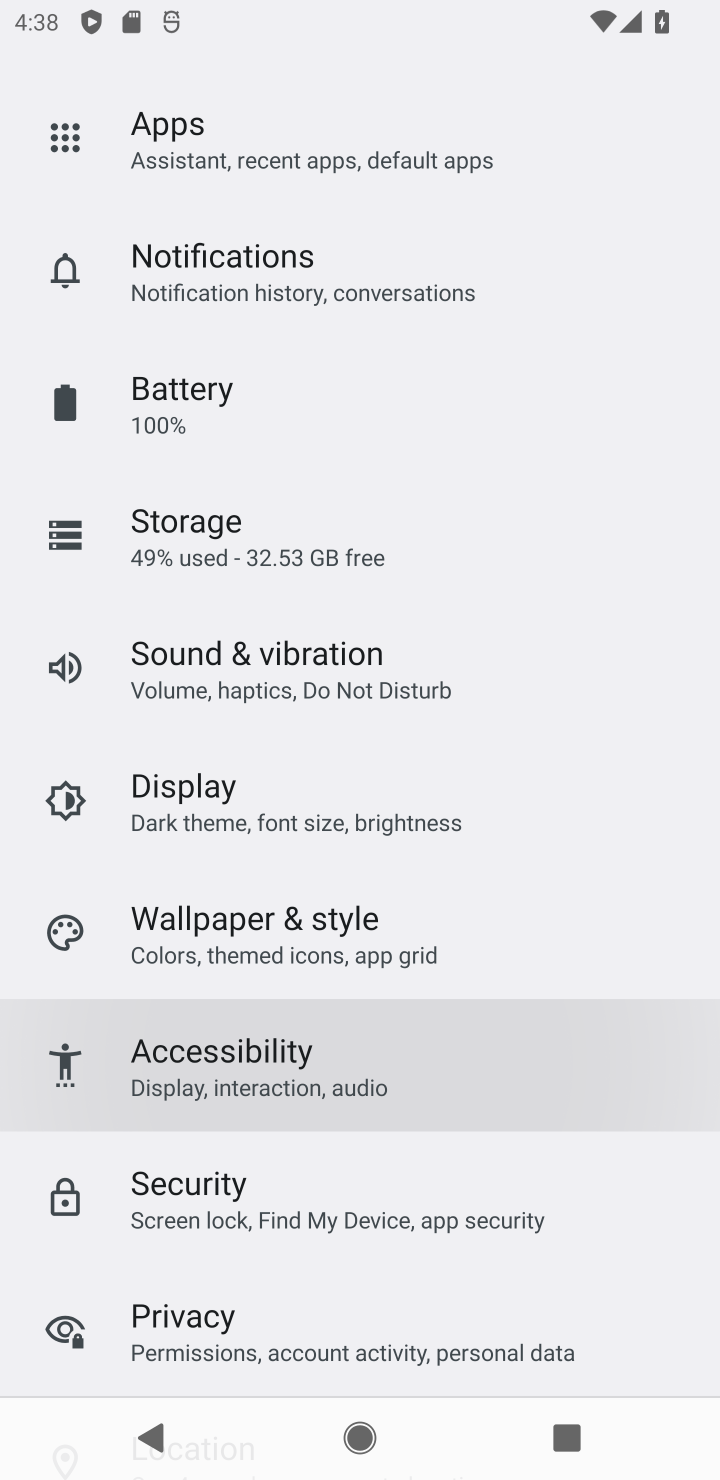
Step 30: drag from (256, 969) to (330, 510)
Your task to perform on an android device: check android version Image 31: 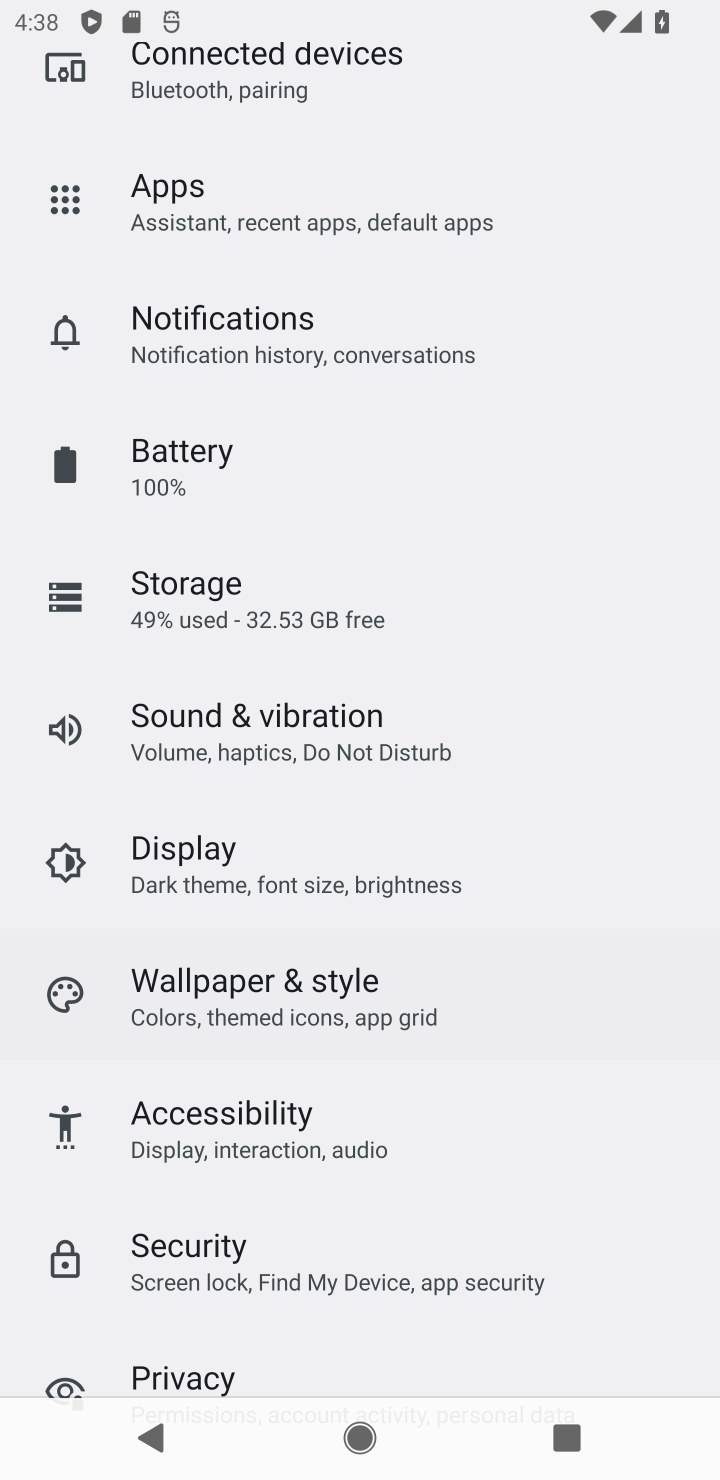
Step 31: drag from (296, 666) to (288, 523)
Your task to perform on an android device: check android version Image 32: 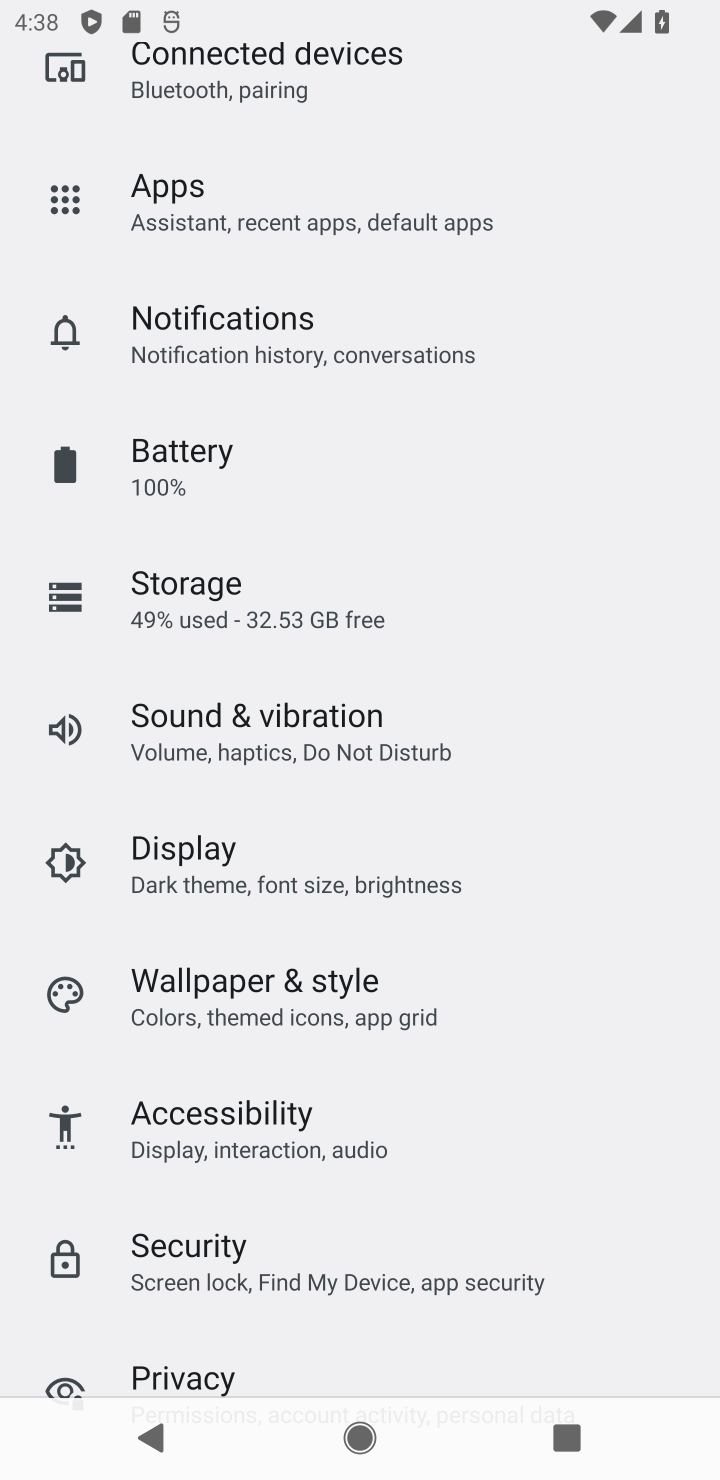
Step 32: drag from (219, 880) to (224, 698)
Your task to perform on an android device: check android version Image 33: 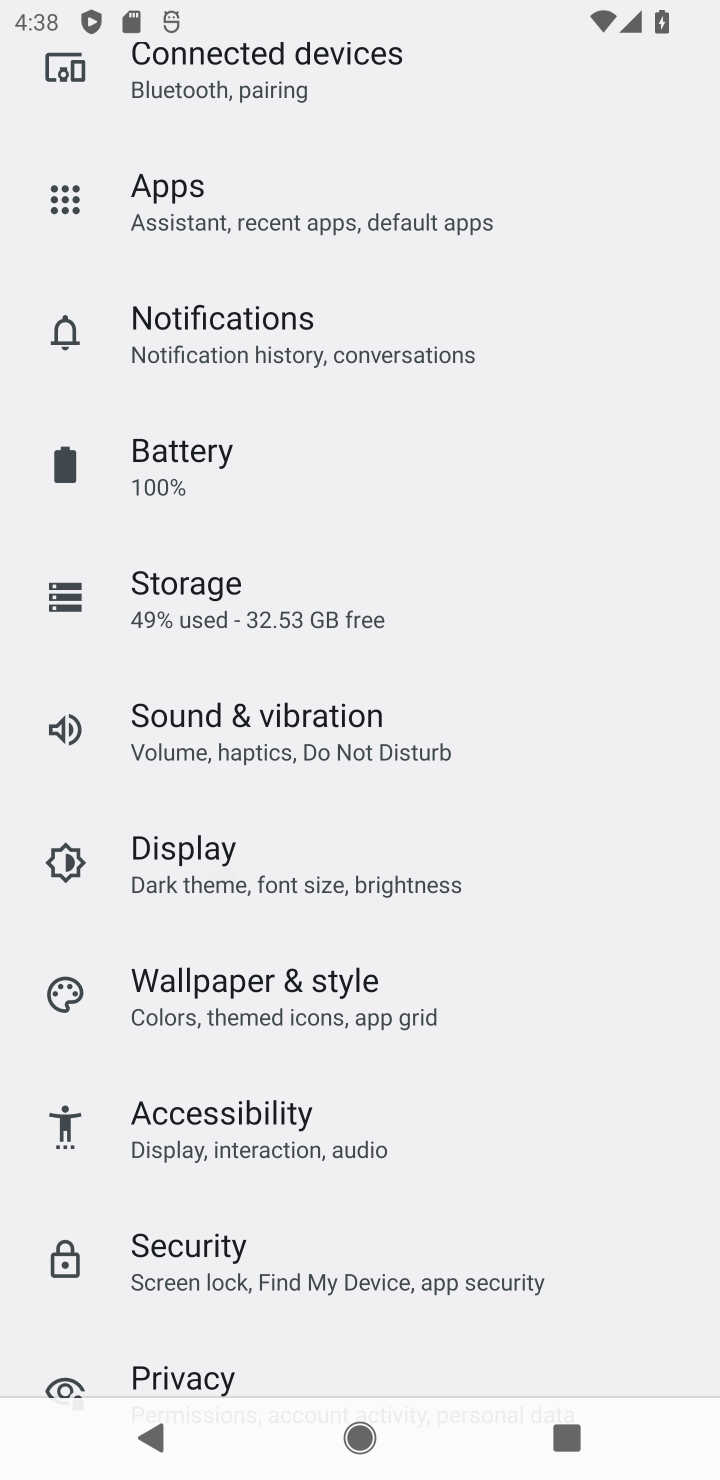
Step 33: drag from (282, 1208) to (165, 331)
Your task to perform on an android device: check android version Image 34: 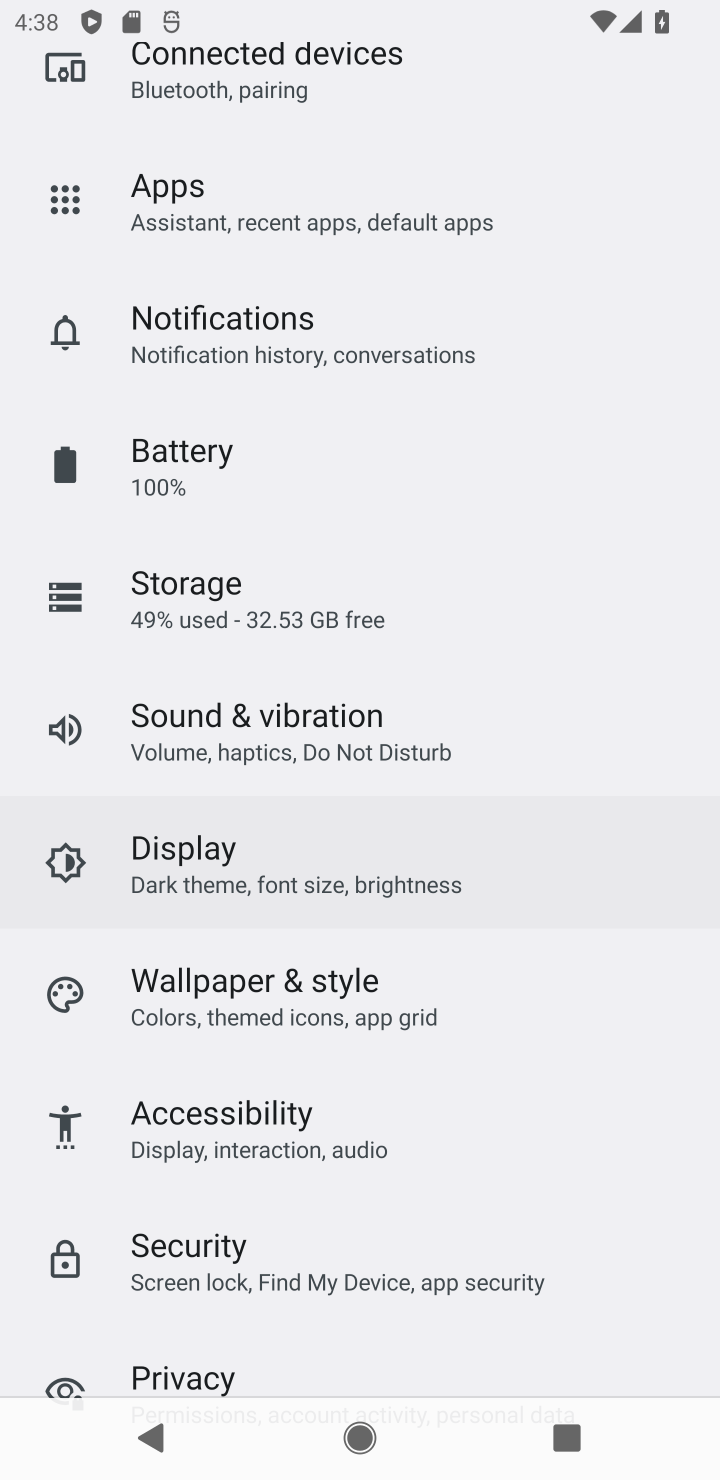
Step 34: drag from (196, 892) to (142, 186)
Your task to perform on an android device: check android version Image 35: 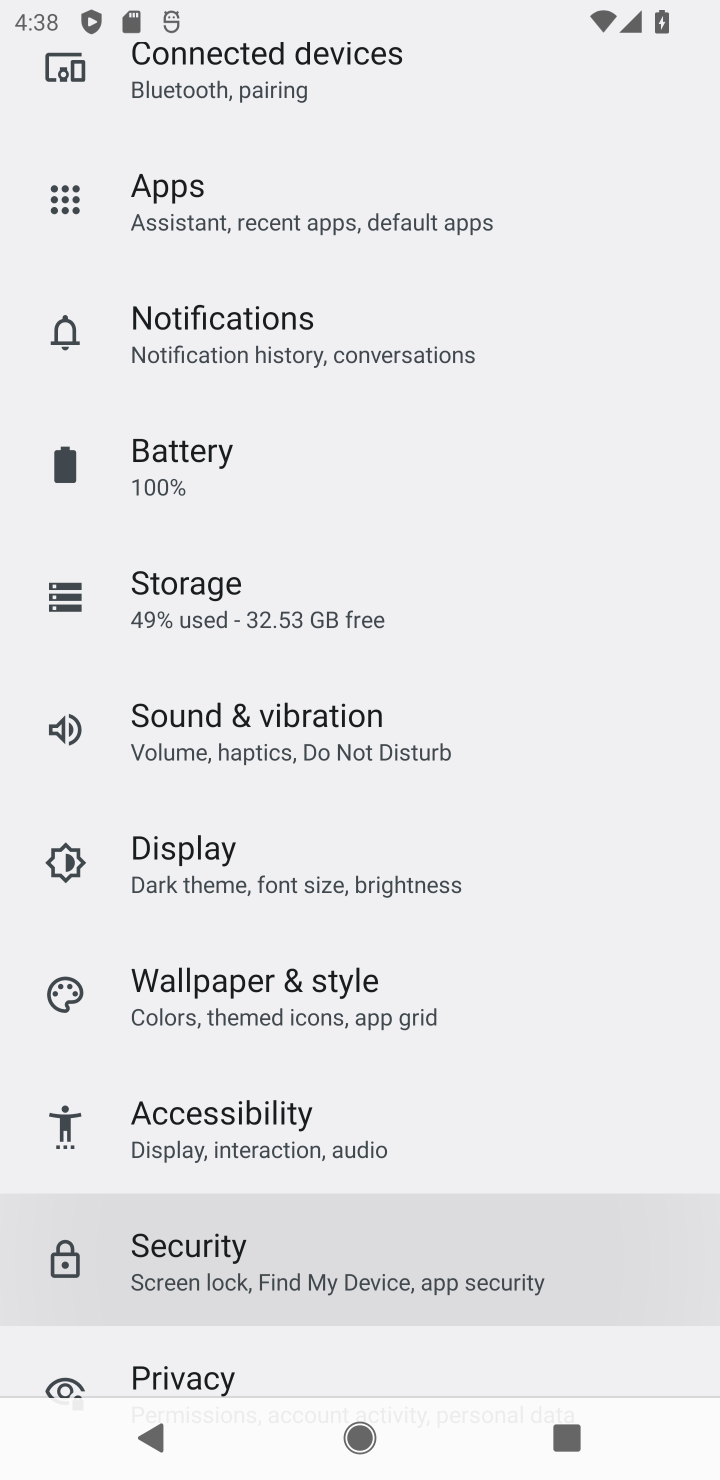
Step 35: drag from (316, 1163) to (236, 534)
Your task to perform on an android device: check android version Image 36: 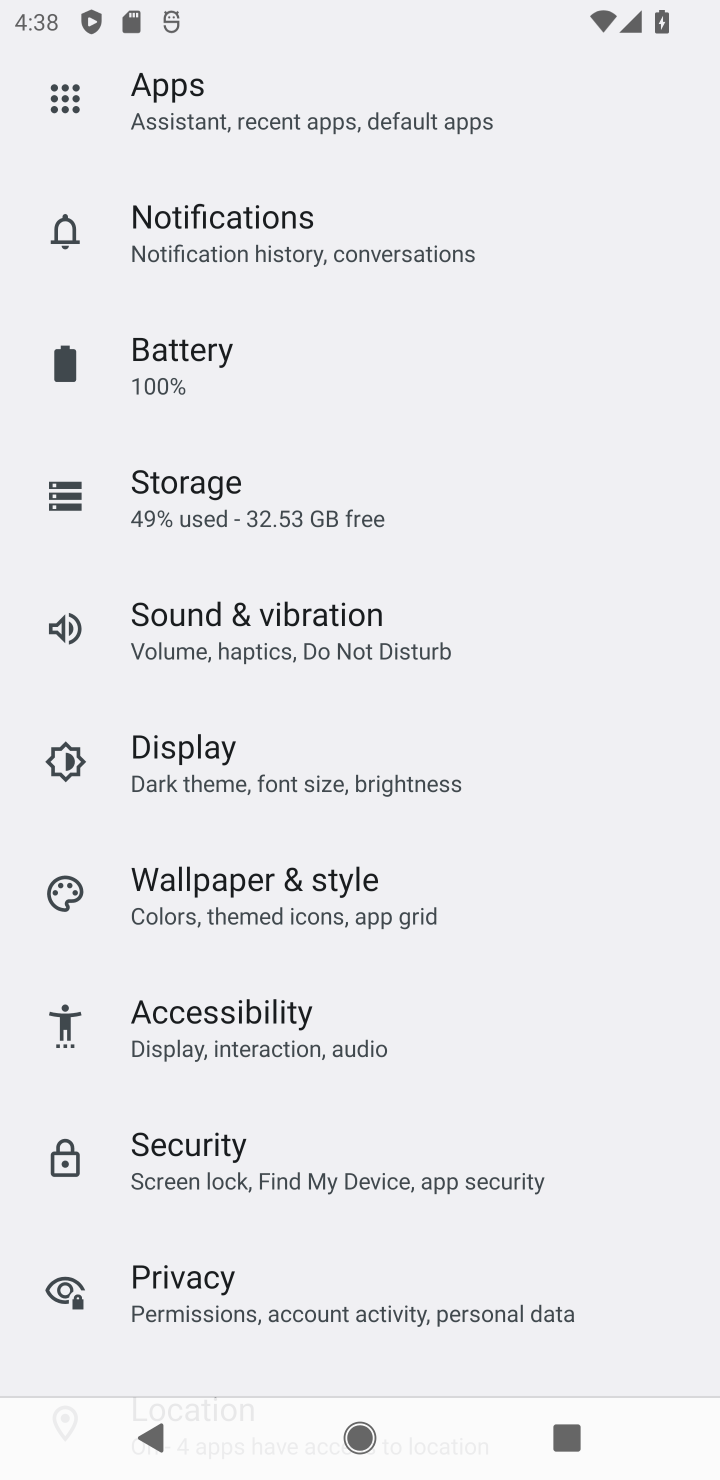
Step 36: drag from (214, 1143) to (195, 343)
Your task to perform on an android device: check android version Image 37: 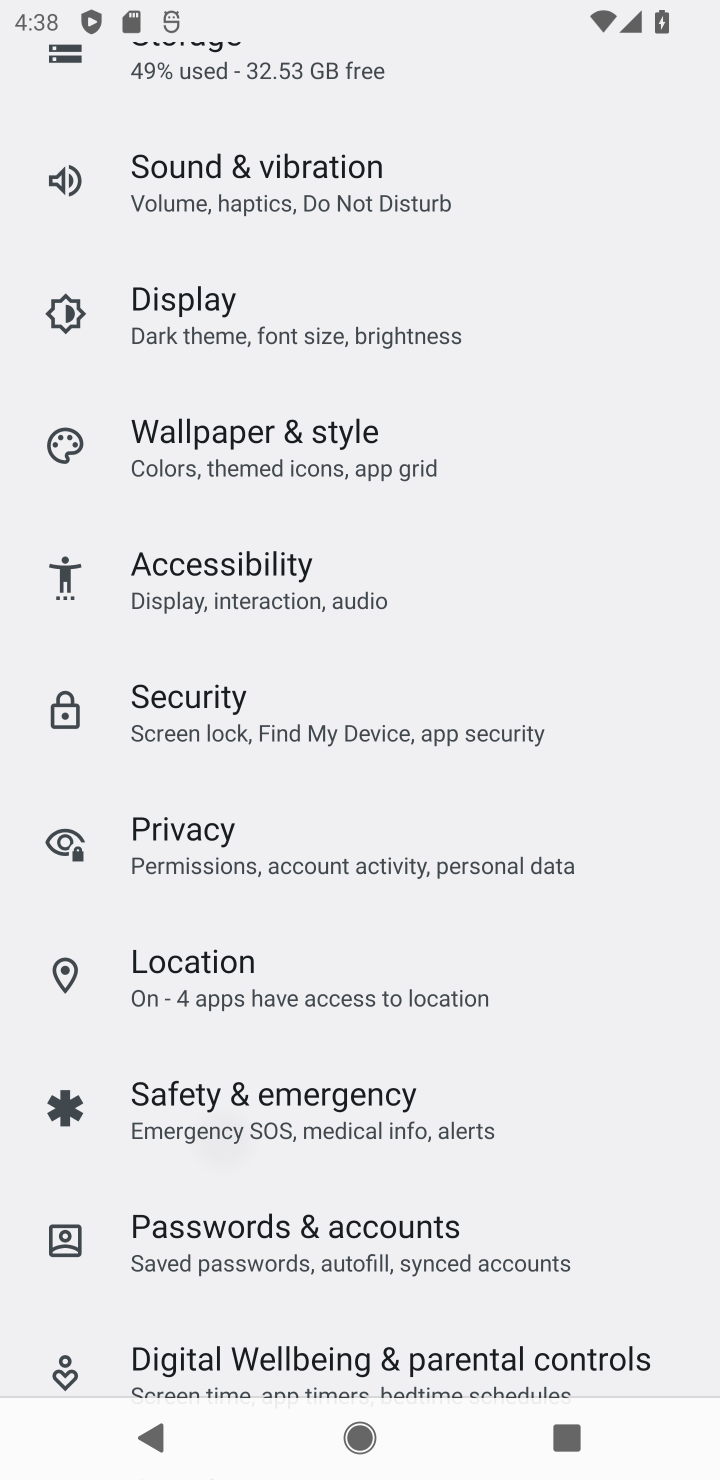
Step 37: drag from (235, 828) to (199, 307)
Your task to perform on an android device: check android version Image 38: 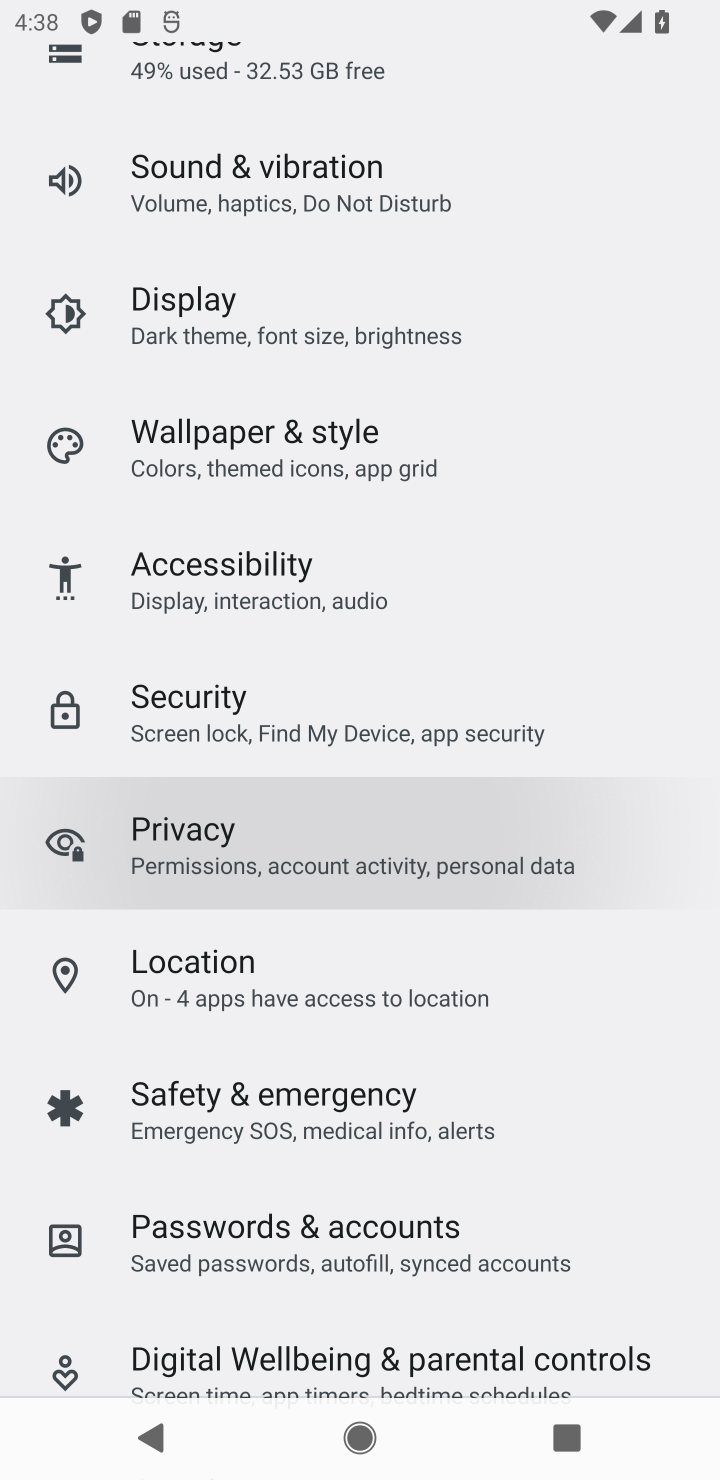
Step 38: drag from (248, 964) to (223, 490)
Your task to perform on an android device: check android version Image 39: 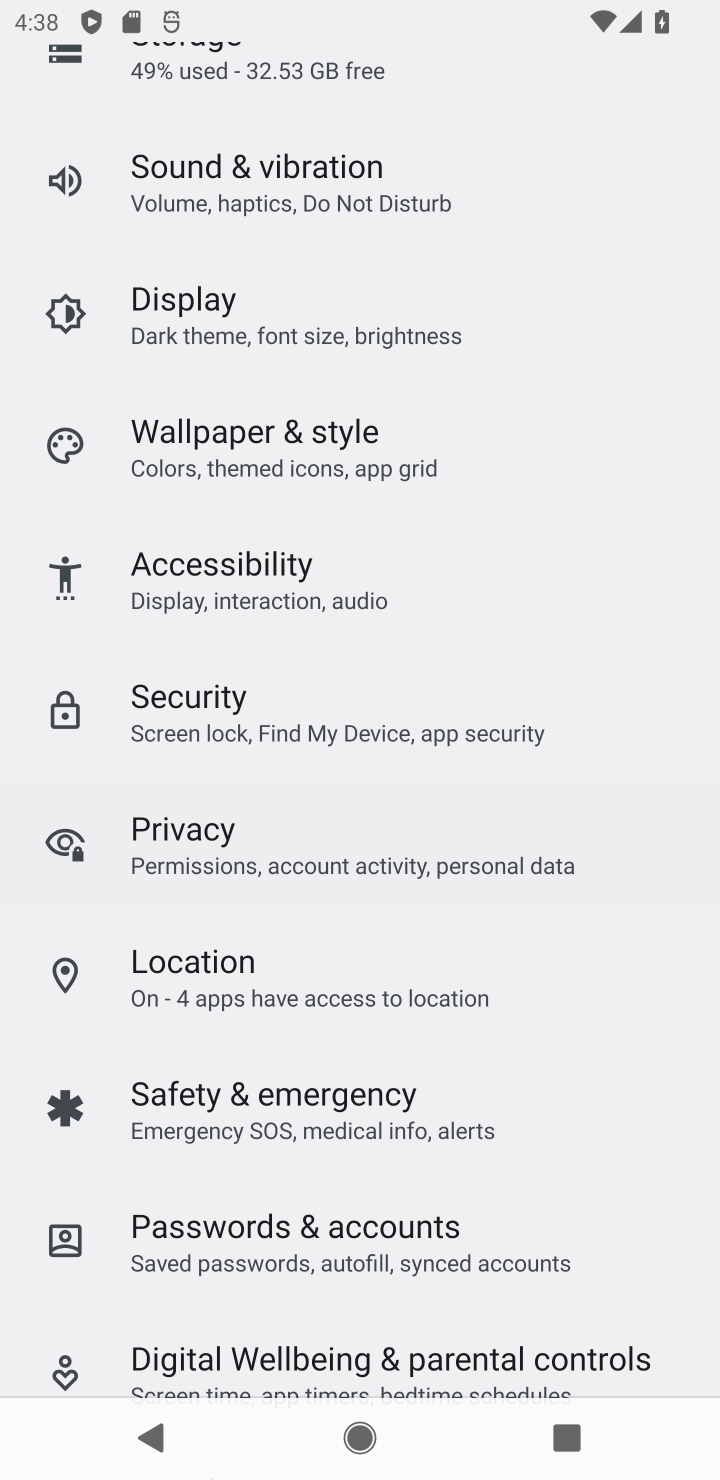
Step 39: drag from (242, 1236) to (216, 496)
Your task to perform on an android device: check android version Image 40: 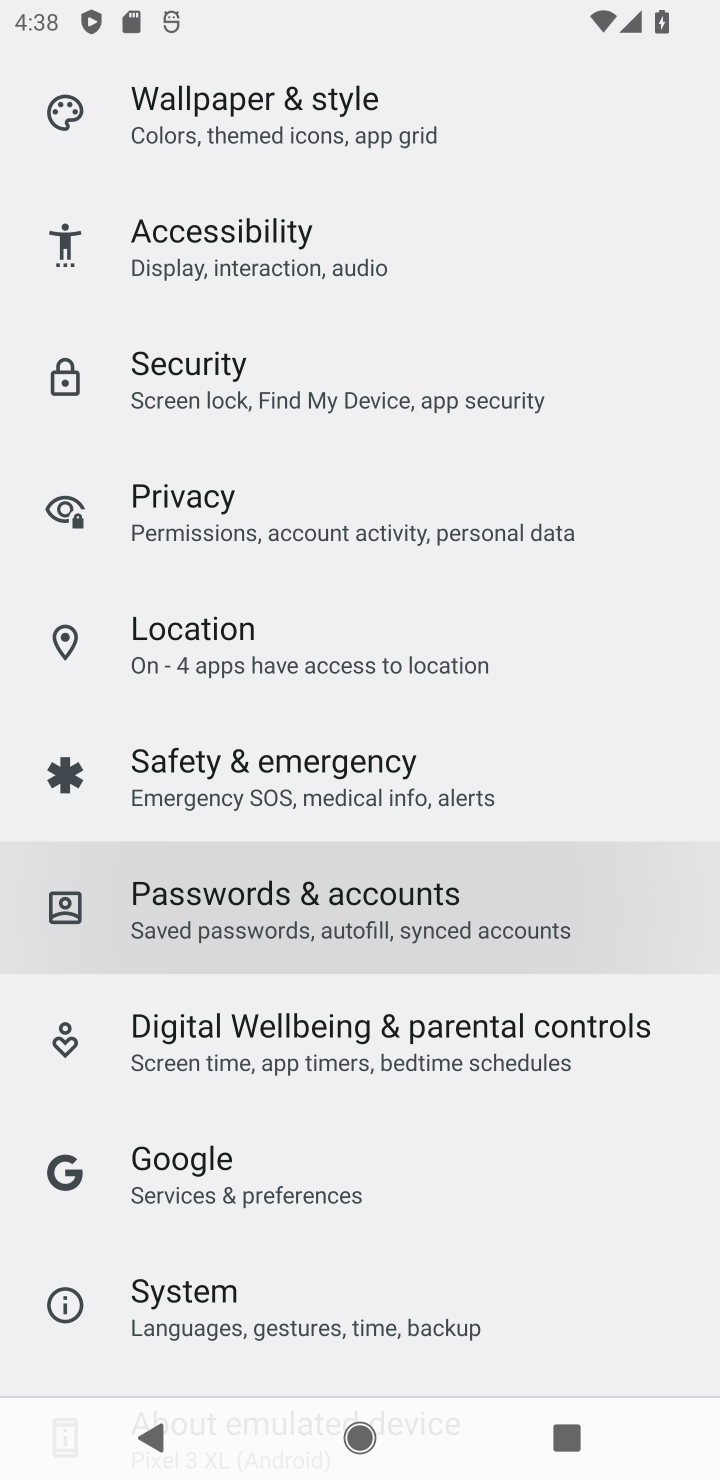
Step 40: drag from (317, 958) to (289, 477)
Your task to perform on an android device: check android version Image 41: 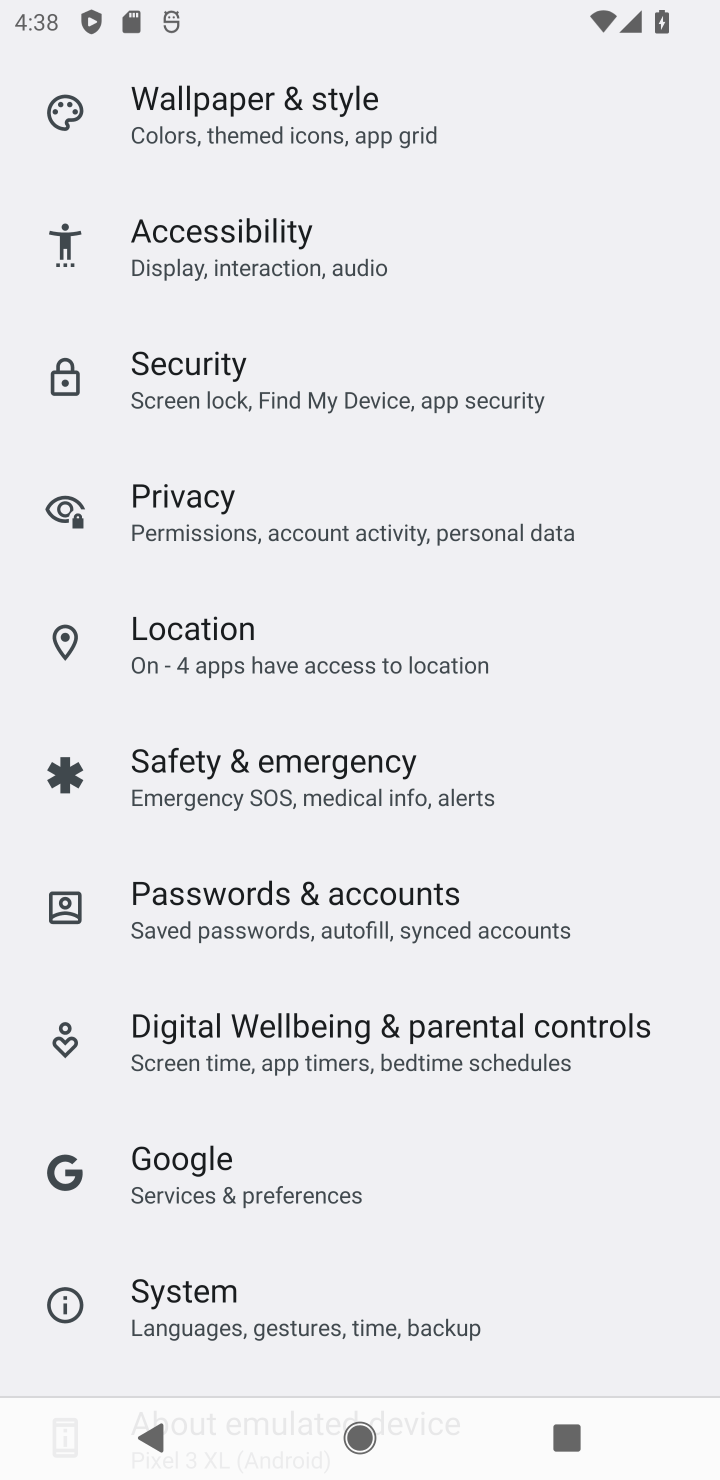
Step 41: drag from (405, 1104) to (291, 571)
Your task to perform on an android device: check android version Image 42: 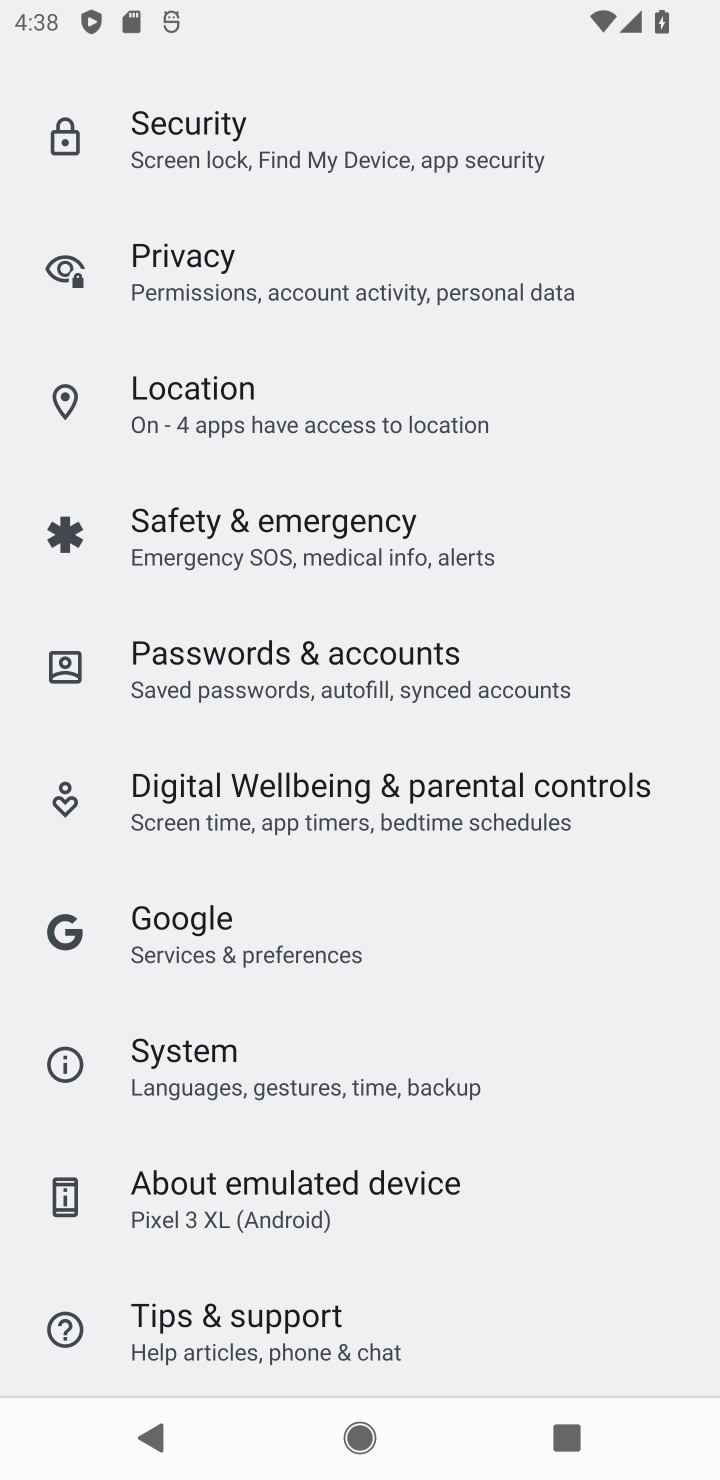
Step 42: click (265, 1177)
Your task to perform on an android device: check android version Image 43: 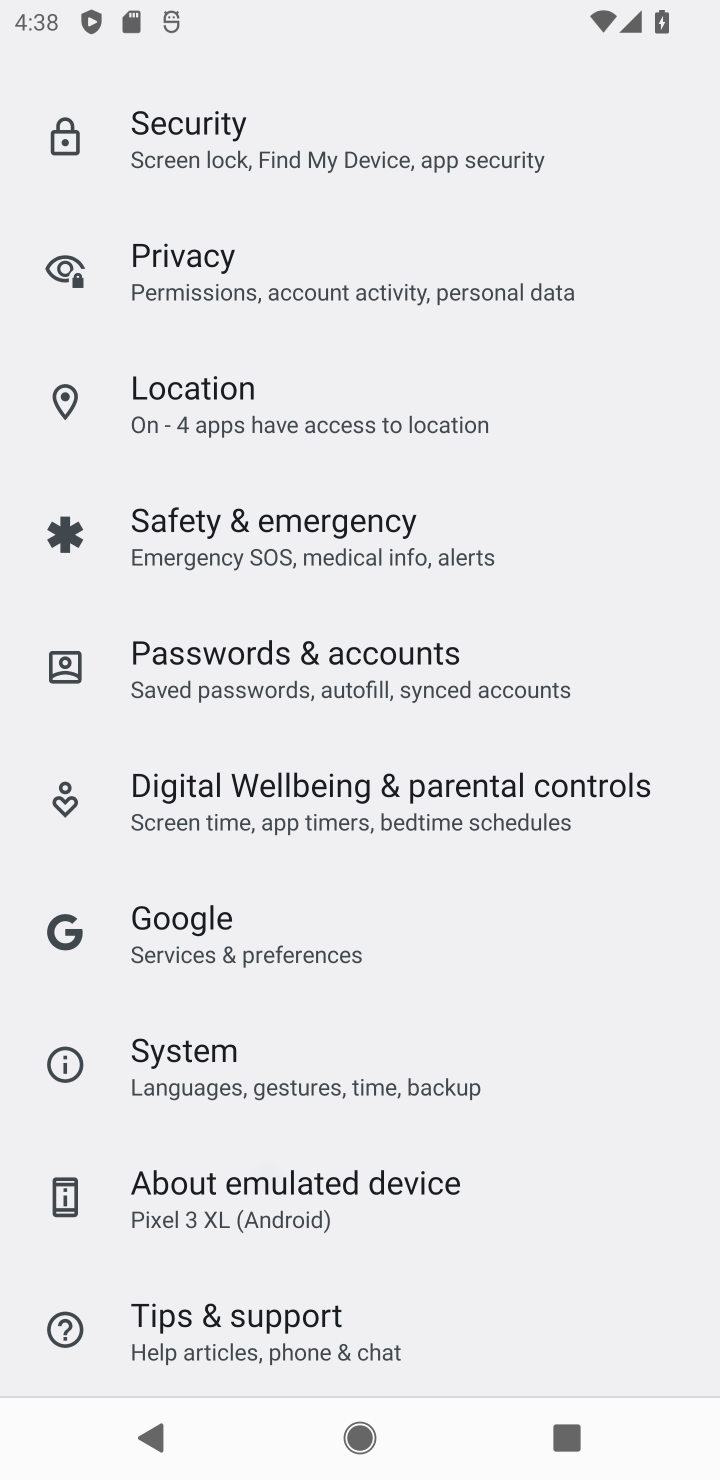
Step 43: click (265, 1175)
Your task to perform on an android device: check android version Image 44: 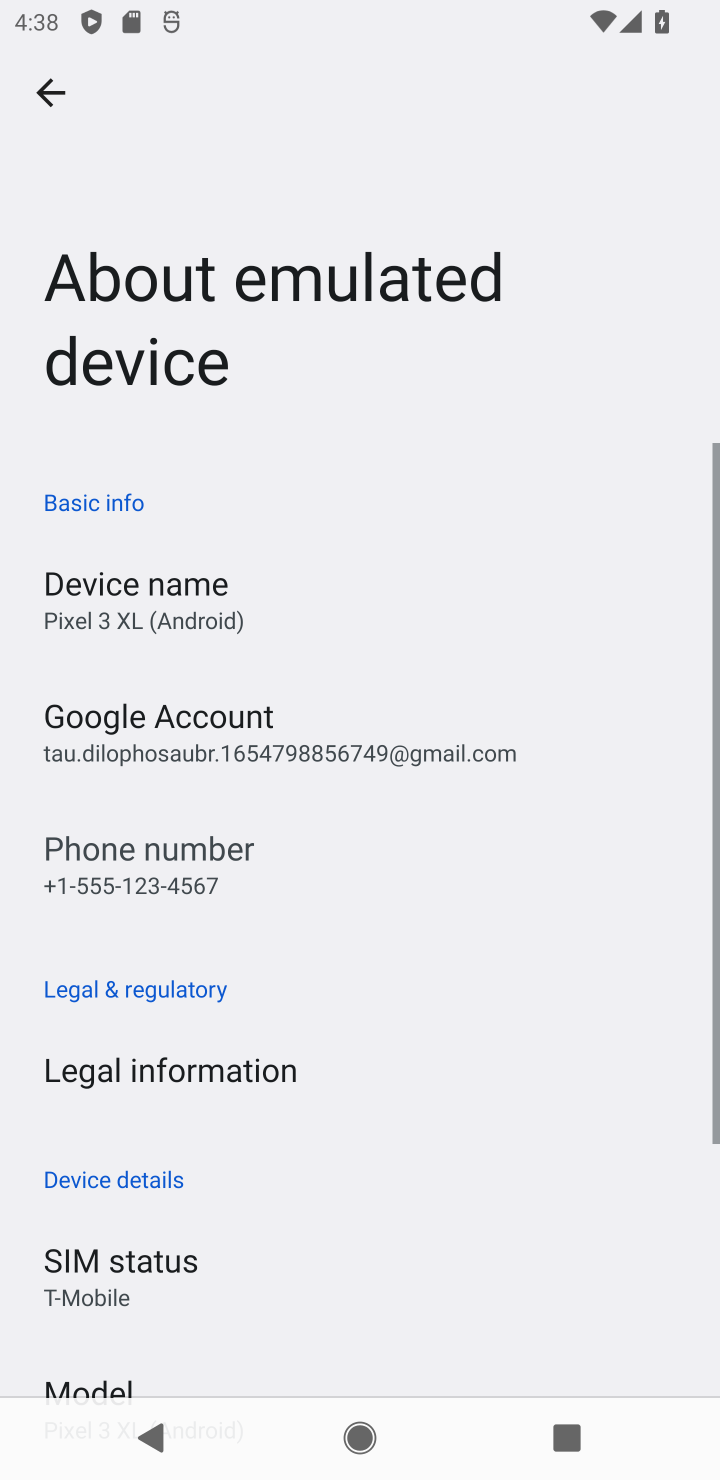
Step 44: task complete